Your task to perform on an android device: Search for custom wallets on Etsy. Image 0: 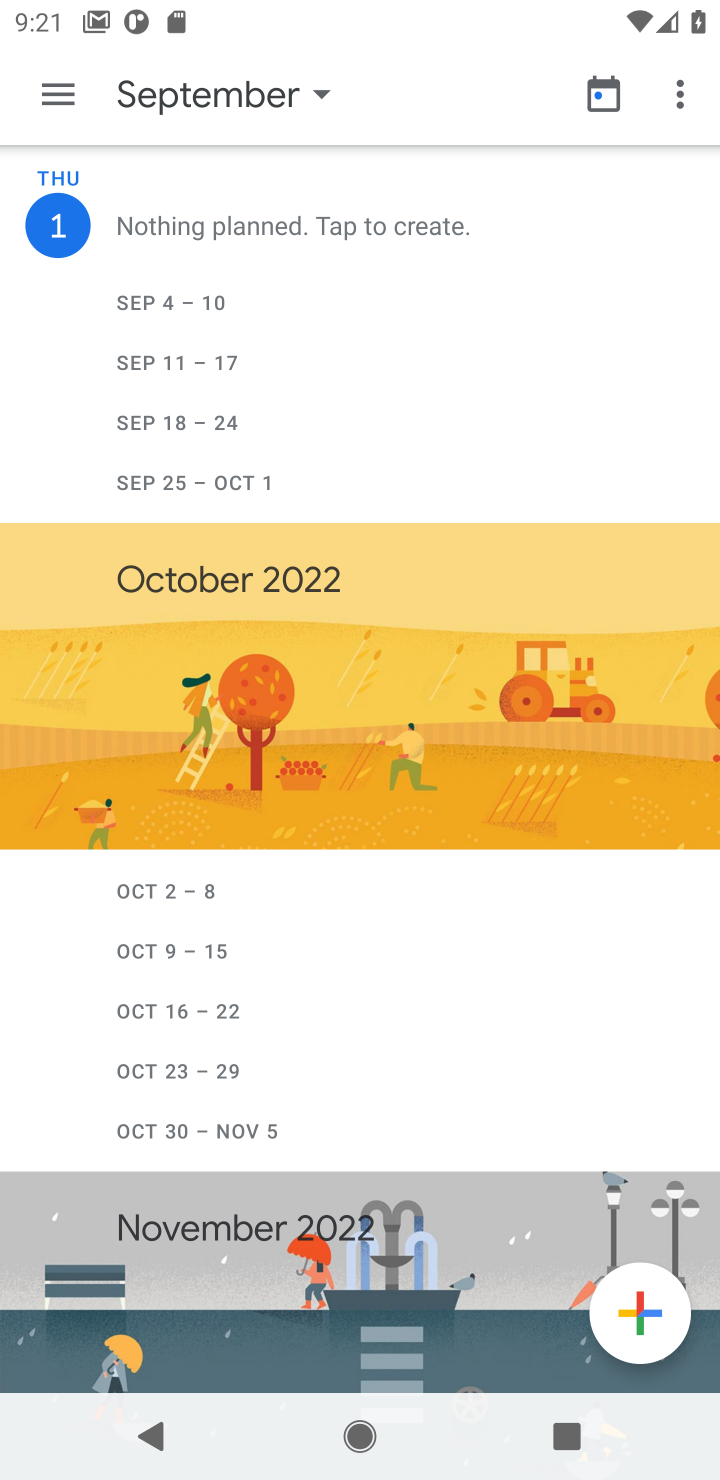
Step 0: press home button
Your task to perform on an android device: Search for custom wallets on Etsy. Image 1: 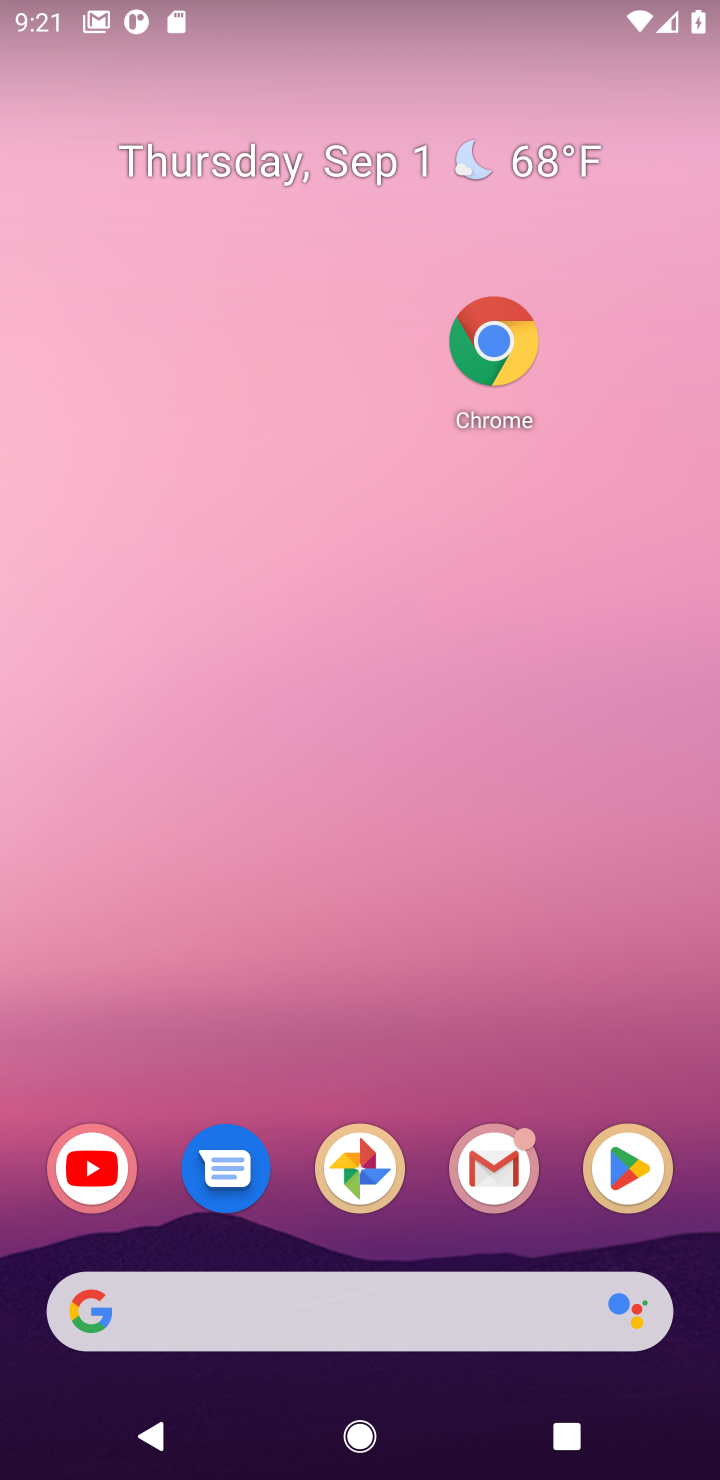
Step 1: drag from (260, 1205) to (321, 495)
Your task to perform on an android device: Search for custom wallets on Etsy. Image 2: 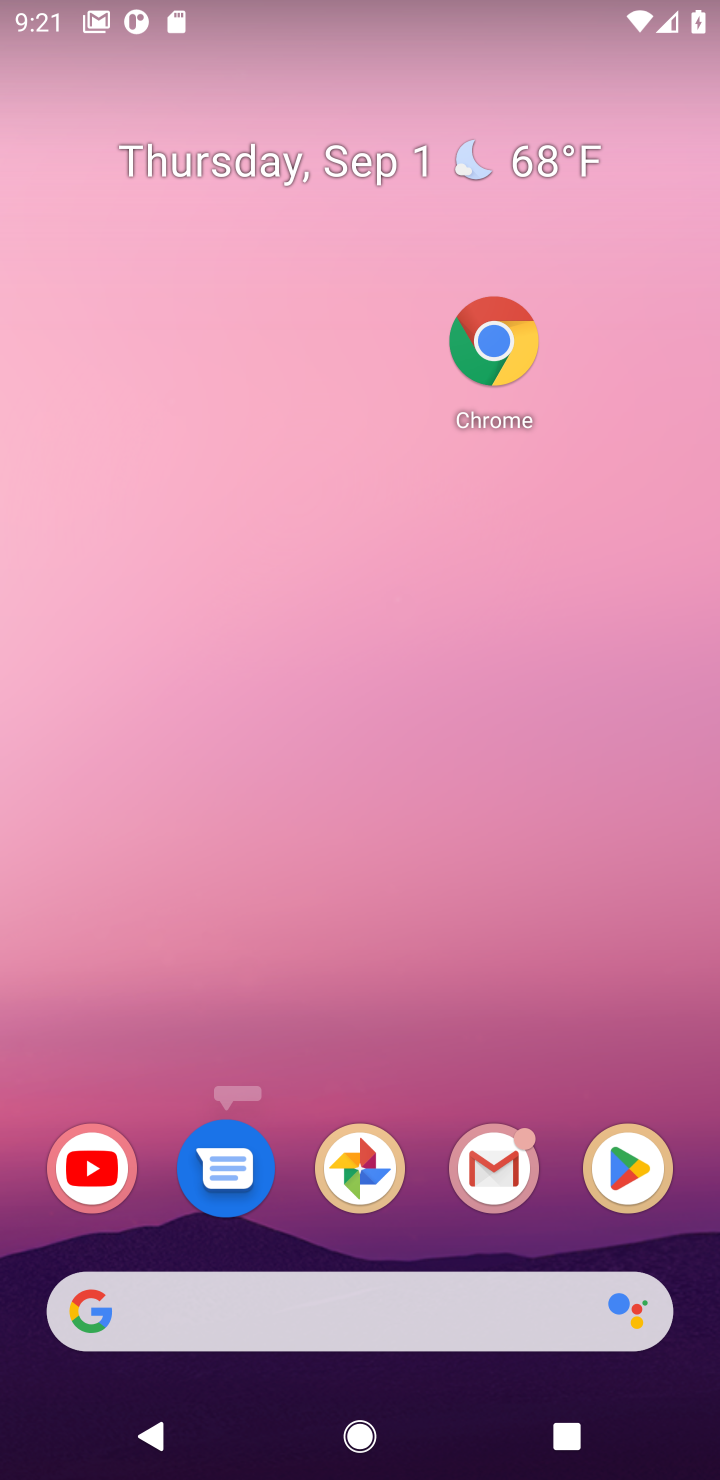
Step 2: click (337, 408)
Your task to perform on an android device: Search for custom wallets on Etsy. Image 3: 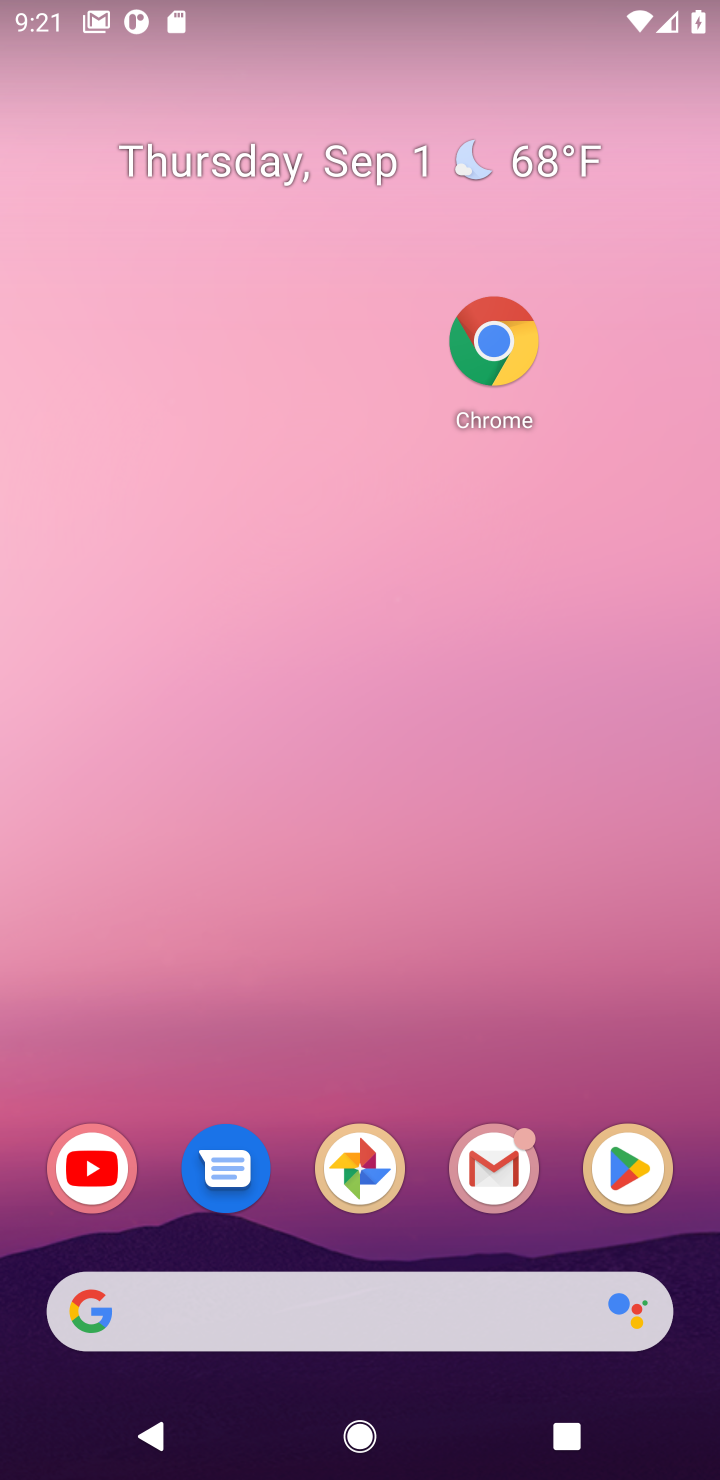
Step 3: drag from (403, 1216) to (397, 426)
Your task to perform on an android device: Search for custom wallets on Etsy. Image 4: 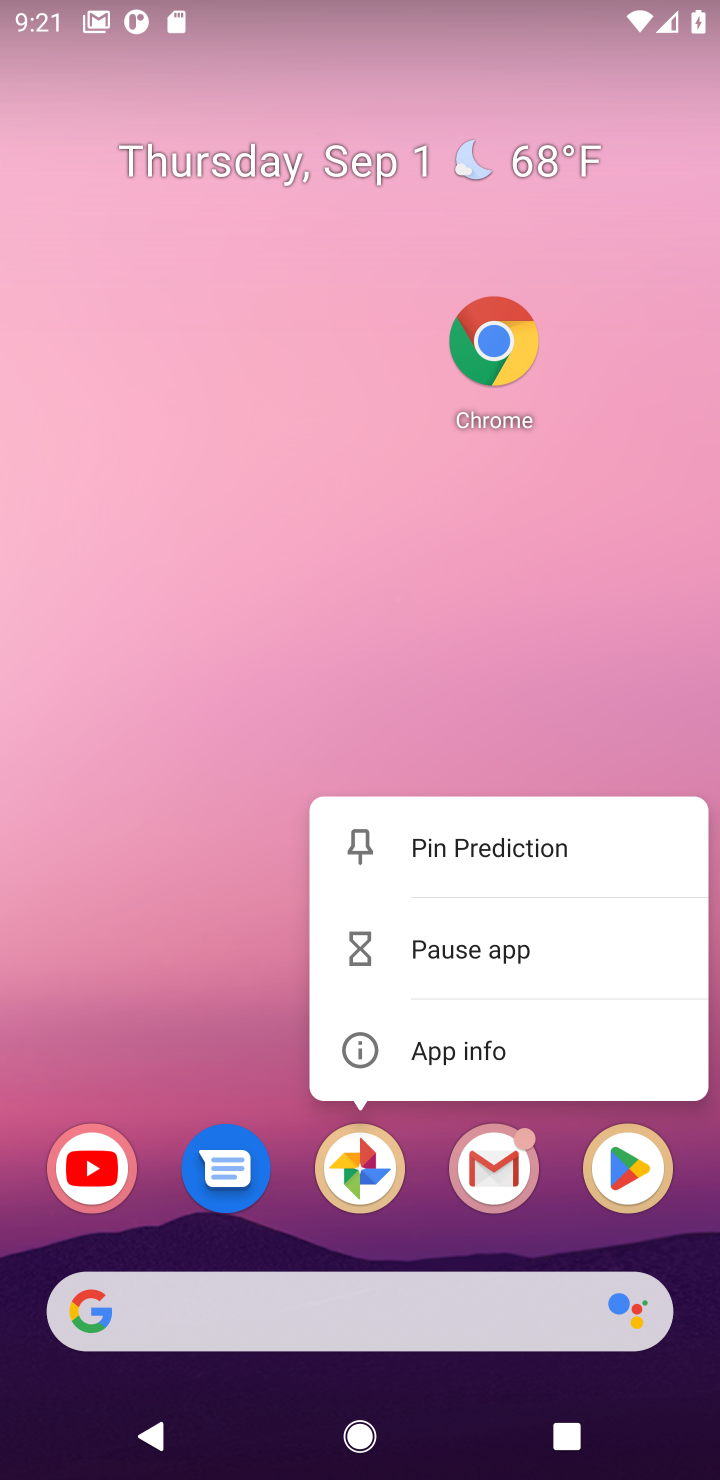
Step 4: click (189, 974)
Your task to perform on an android device: Search for custom wallets on Etsy. Image 5: 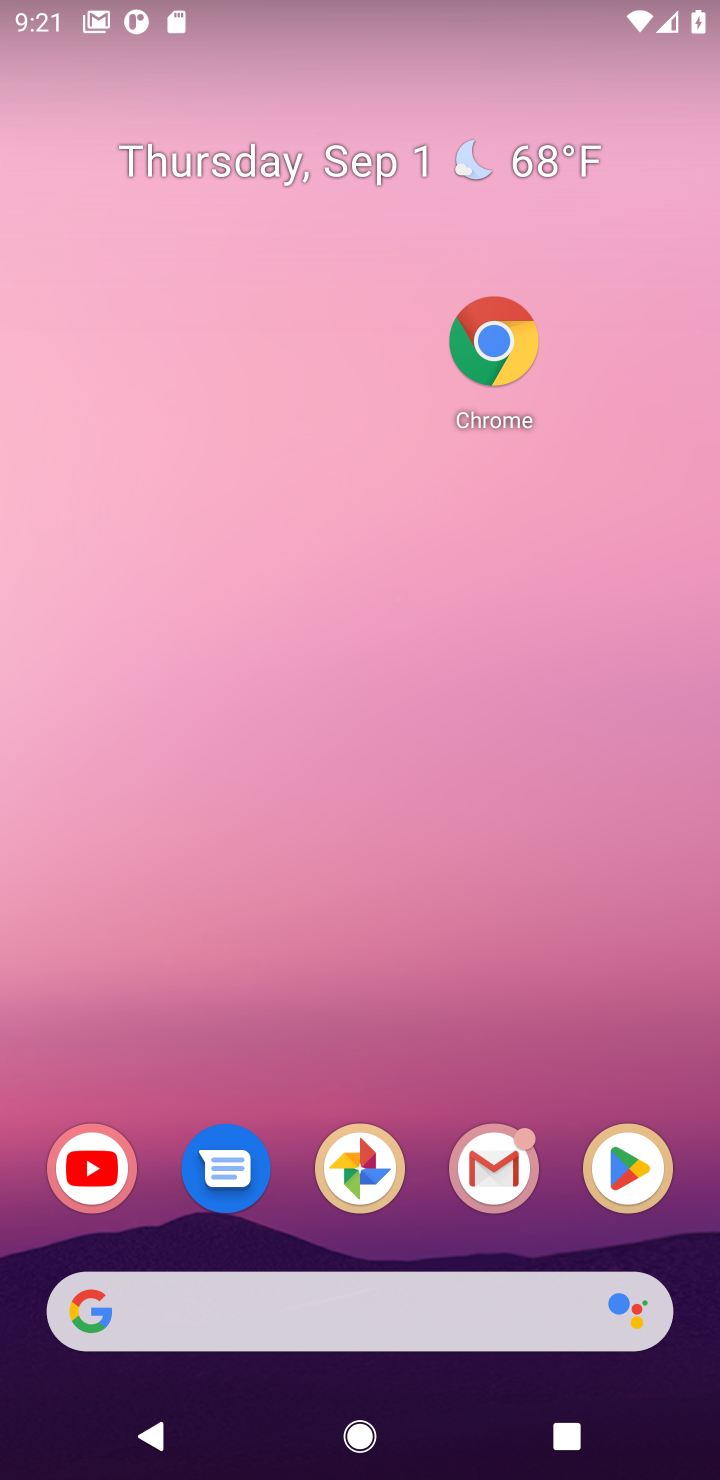
Step 5: click (298, 74)
Your task to perform on an android device: Search for custom wallets on Etsy. Image 6: 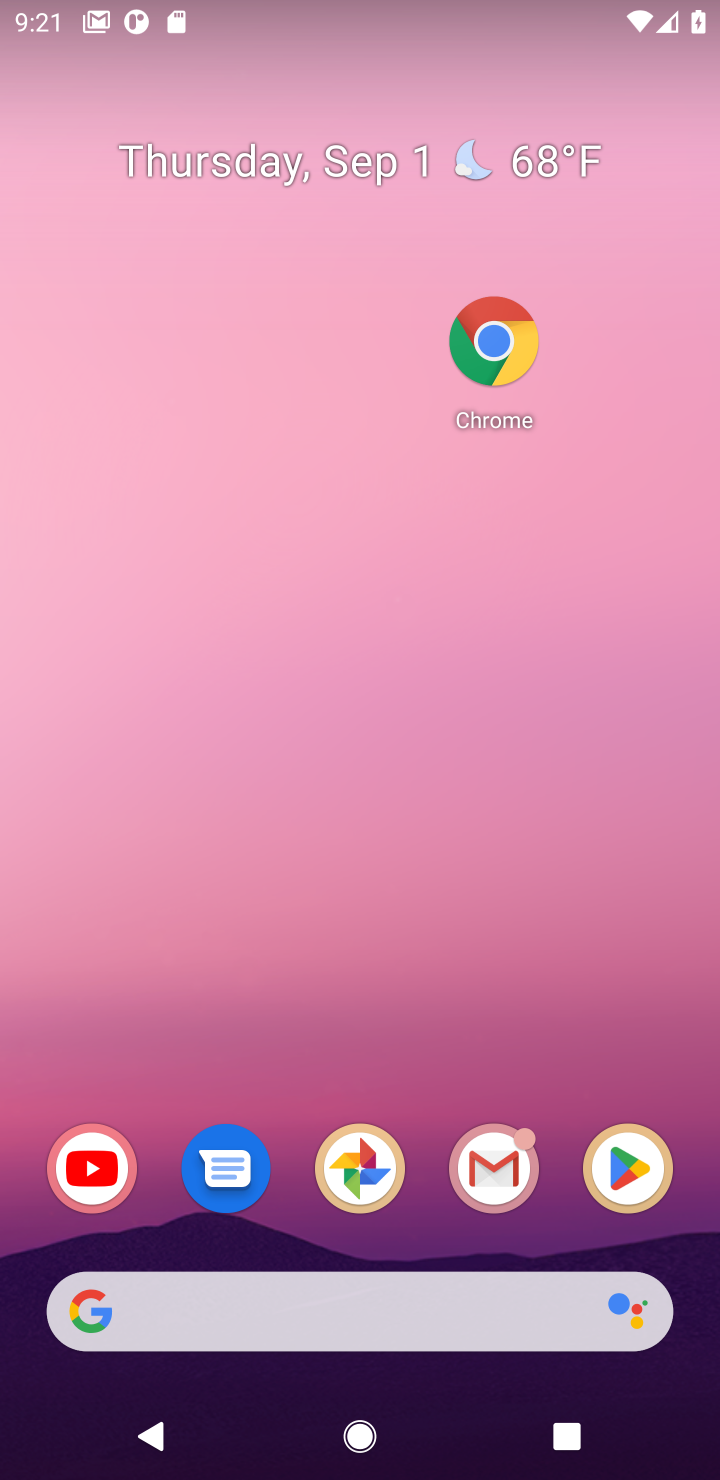
Step 6: click (259, 321)
Your task to perform on an android device: Search for custom wallets on Etsy. Image 7: 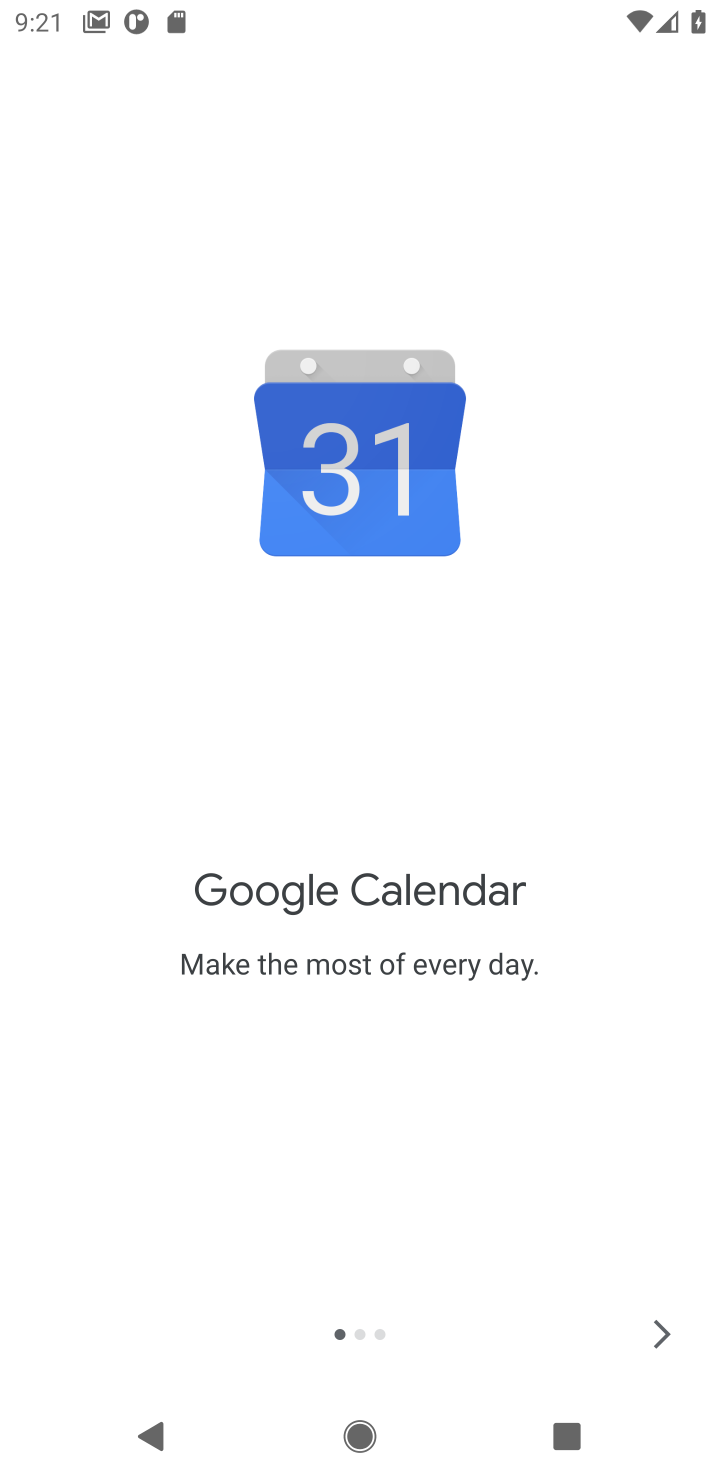
Step 7: press home button
Your task to perform on an android device: Search for custom wallets on Etsy. Image 8: 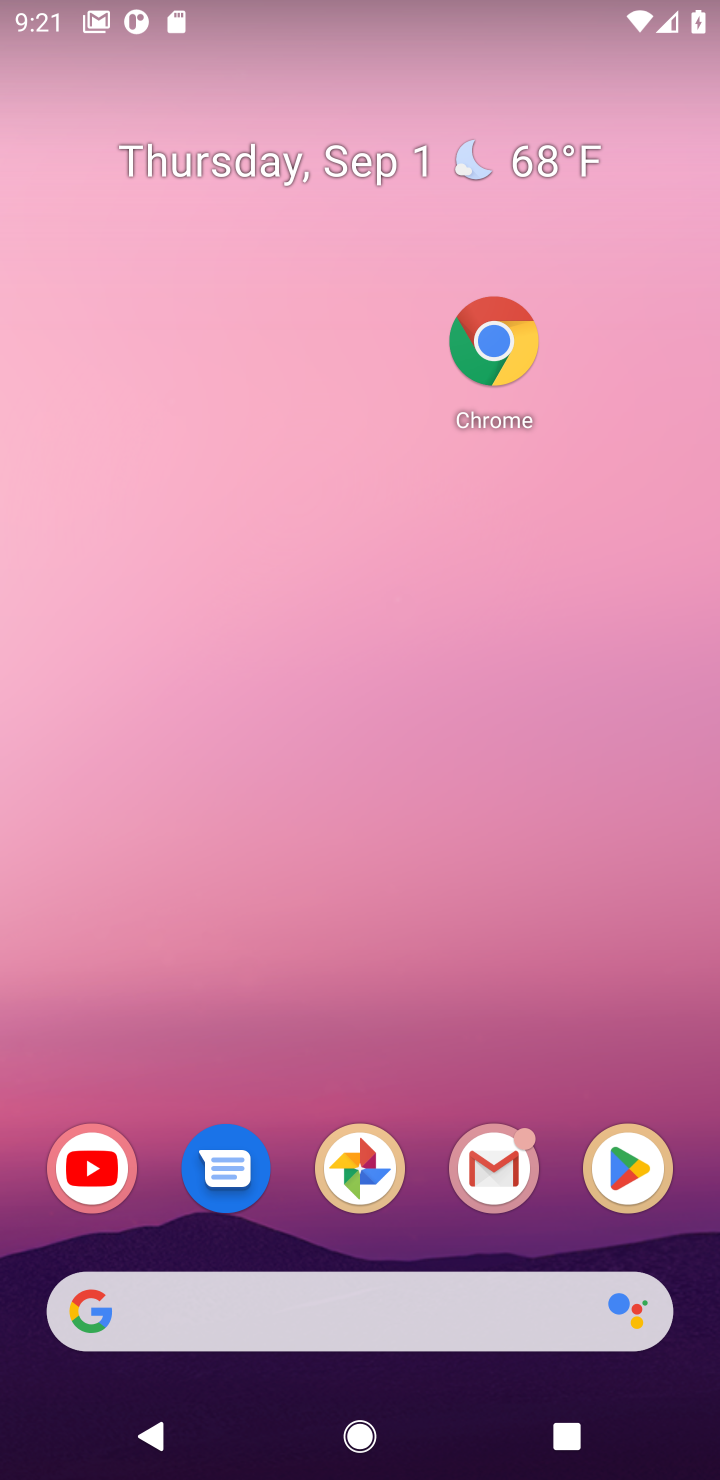
Step 8: drag from (374, 680) to (379, 385)
Your task to perform on an android device: Search for custom wallets on Etsy. Image 9: 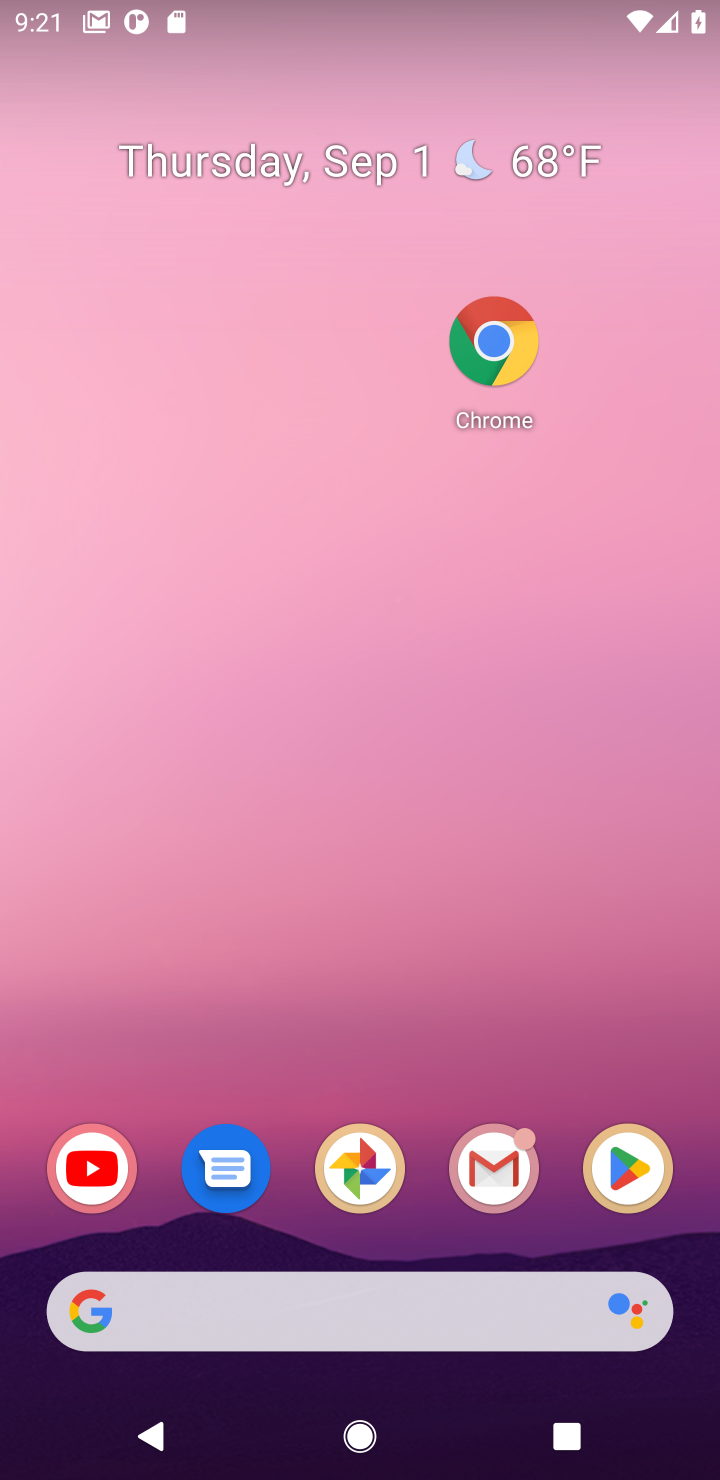
Step 9: click (411, 679)
Your task to perform on an android device: Search for custom wallets on Etsy. Image 10: 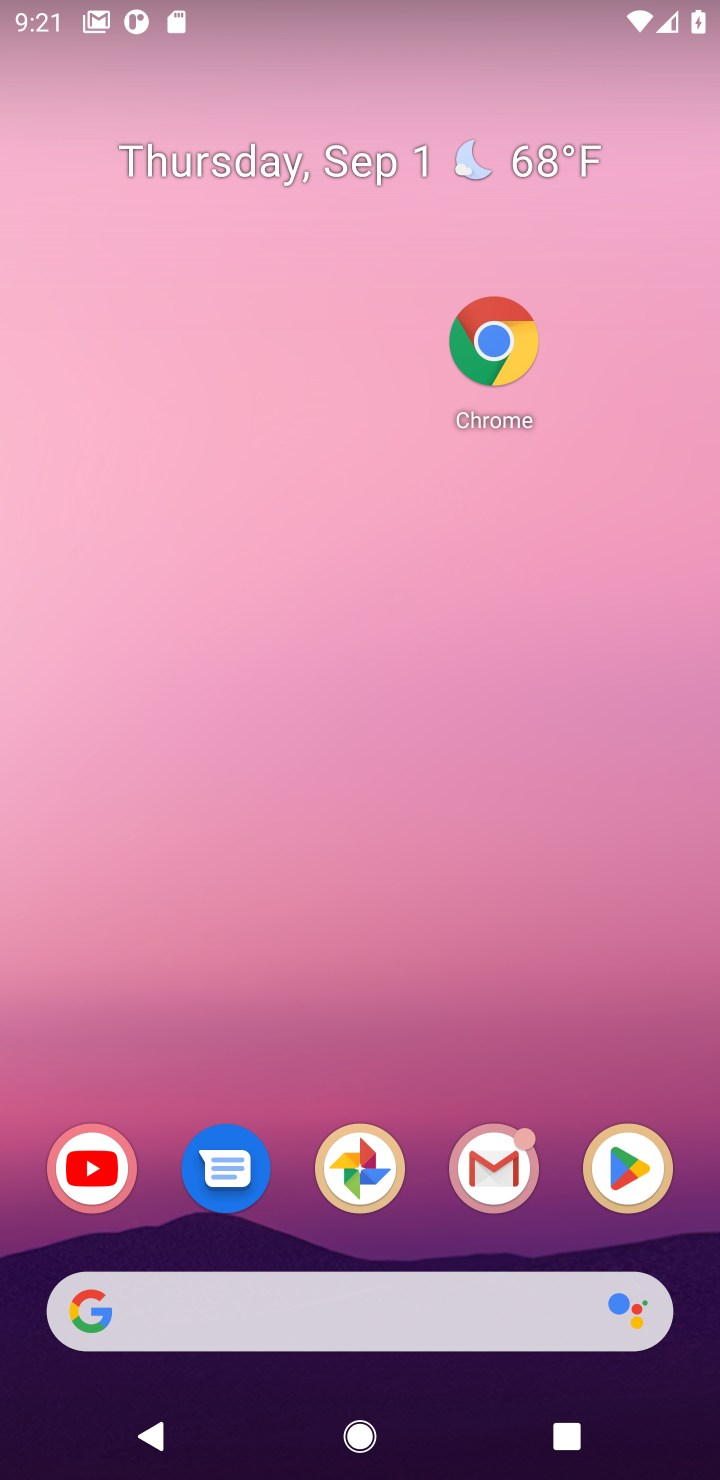
Step 10: drag from (269, 782) to (269, 511)
Your task to perform on an android device: Search for custom wallets on Etsy. Image 11: 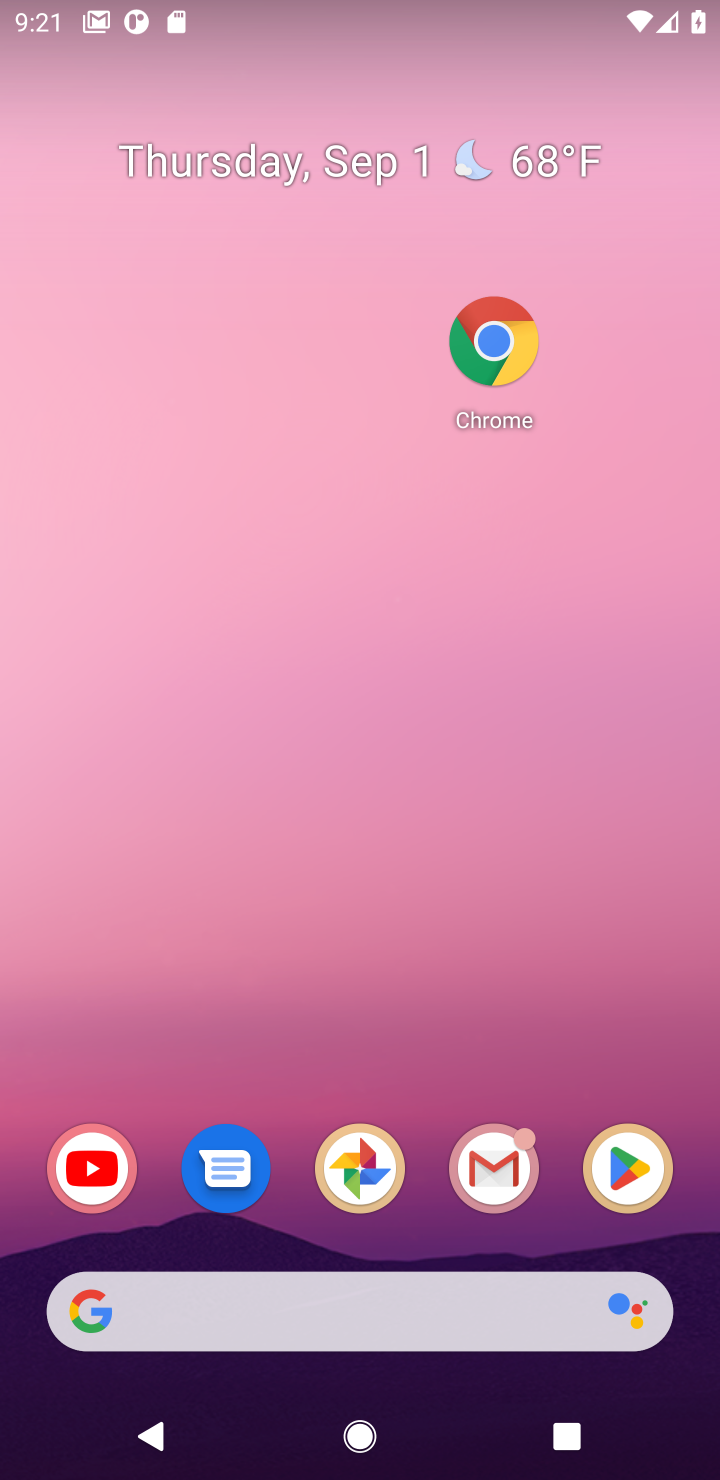
Step 11: drag from (233, 1434) to (351, 281)
Your task to perform on an android device: Search for custom wallets on Etsy. Image 12: 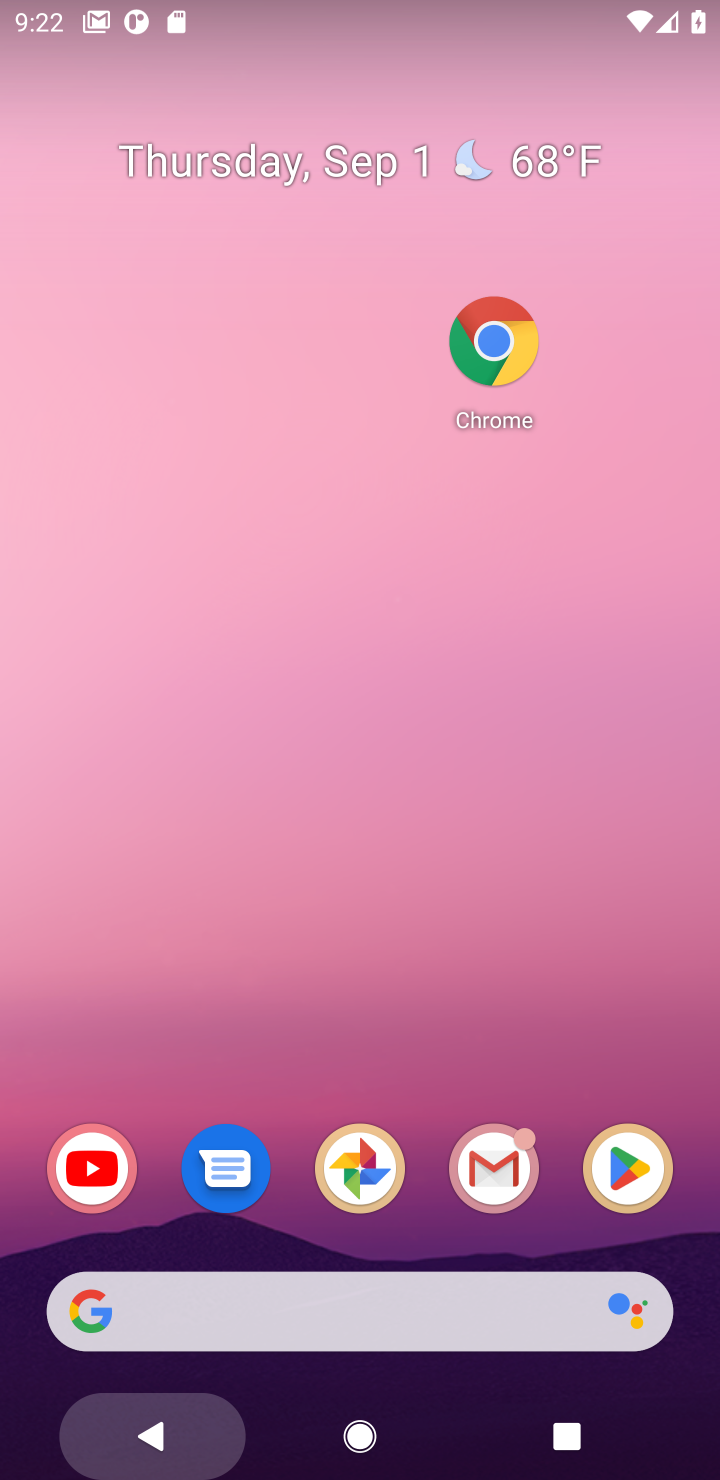
Step 12: click (304, 571)
Your task to perform on an android device: Search for custom wallets on Etsy. Image 13: 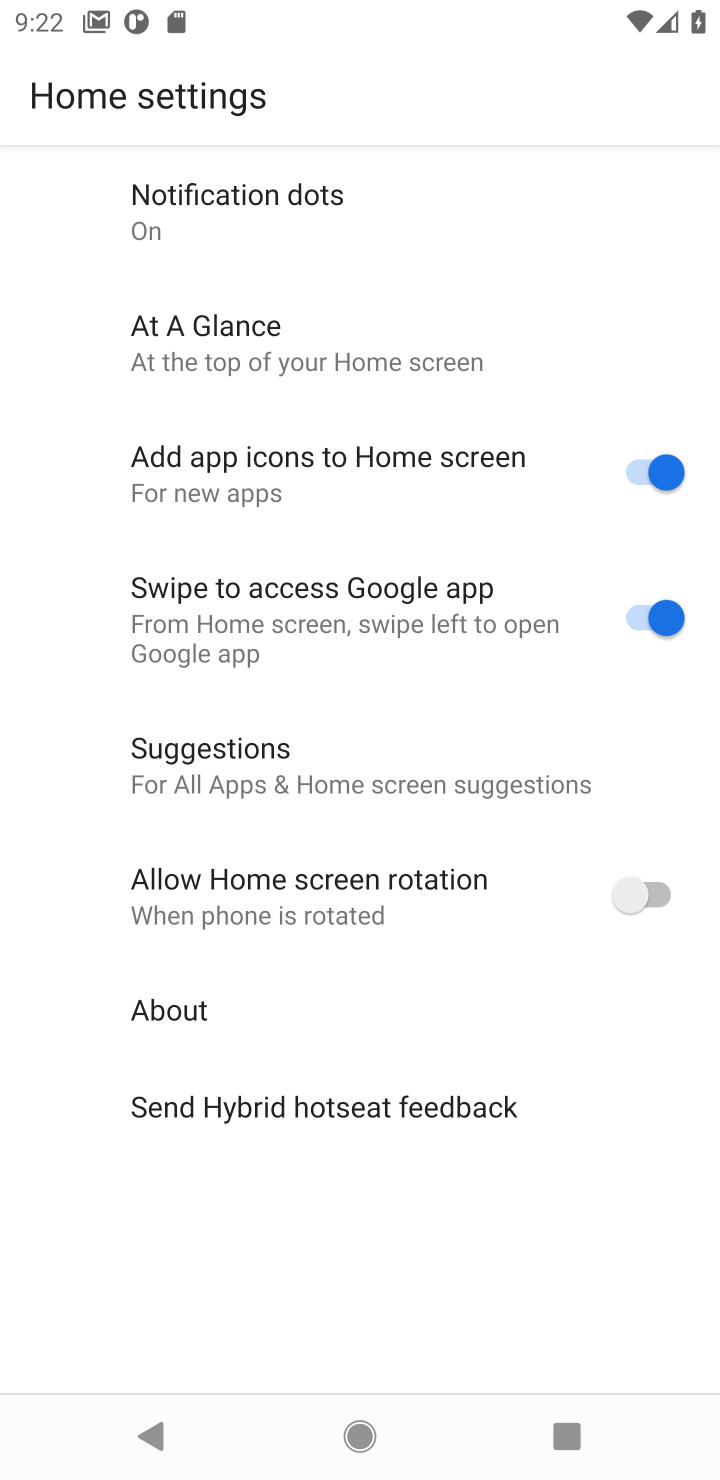
Step 13: press home button
Your task to perform on an android device: Search for custom wallets on Etsy. Image 14: 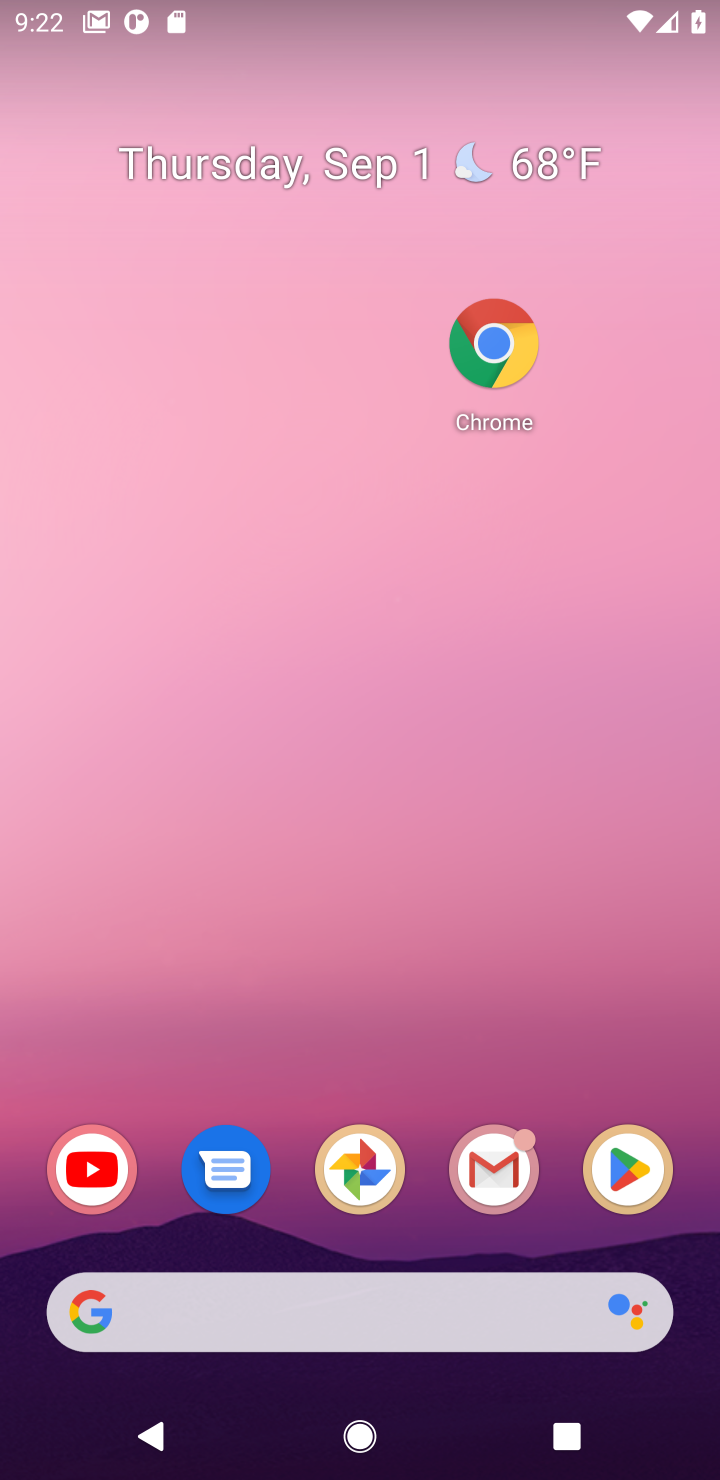
Step 14: press home button
Your task to perform on an android device: Search for custom wallets on Etsy. Image 15: 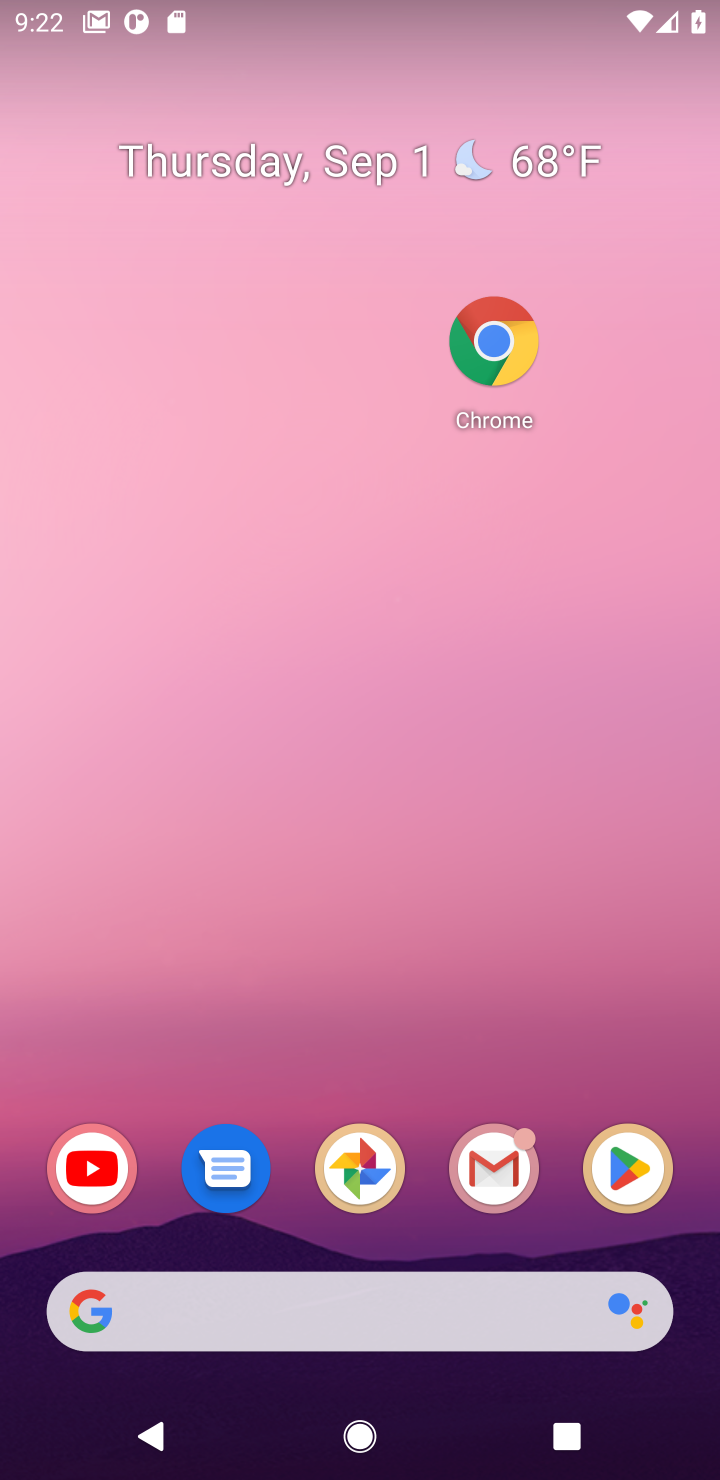
Step 15: drag from (349, 960) to (439, 409)
Your task to perform on an android device: Search for custom wallets on Etsy. Image 16: 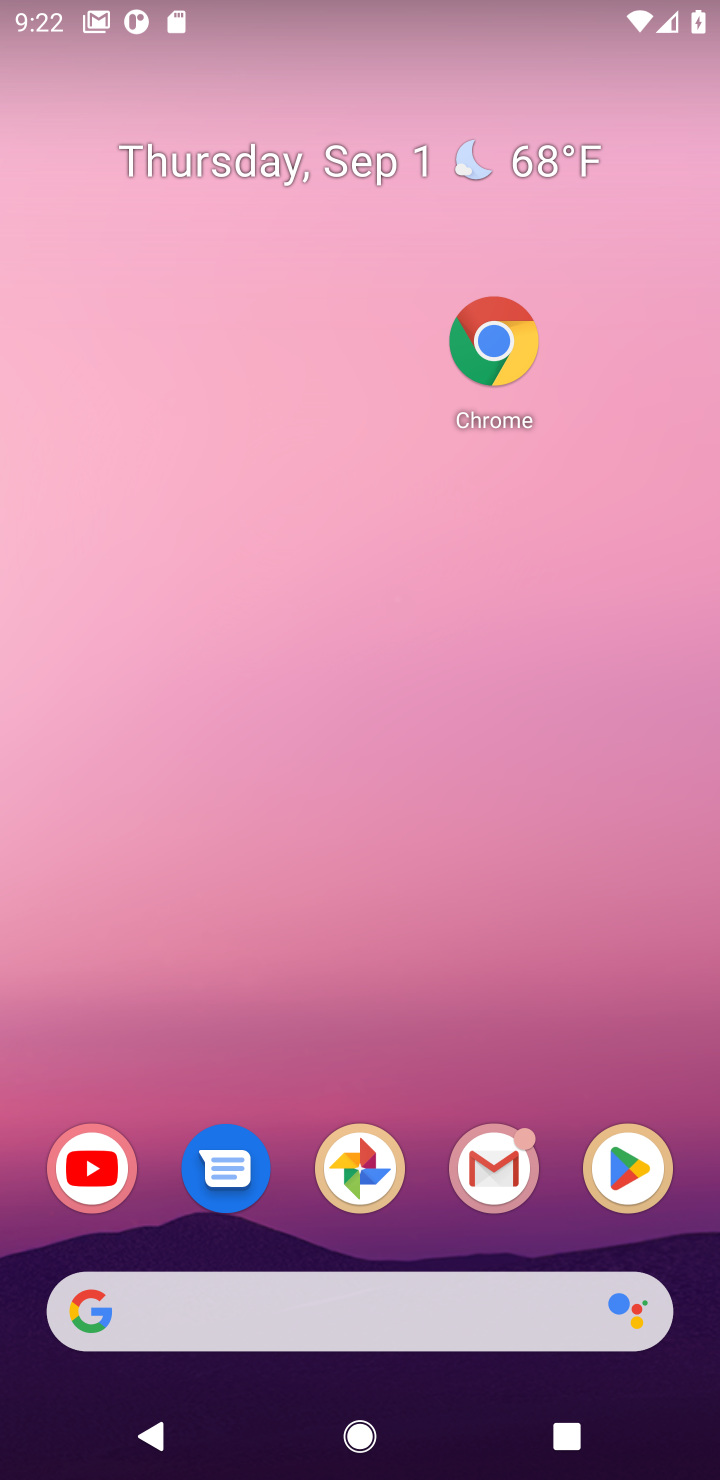
Step 16: click (365, 80)
Your task to perform on an android device: Search for custom wallets on Etsy. Image 17: 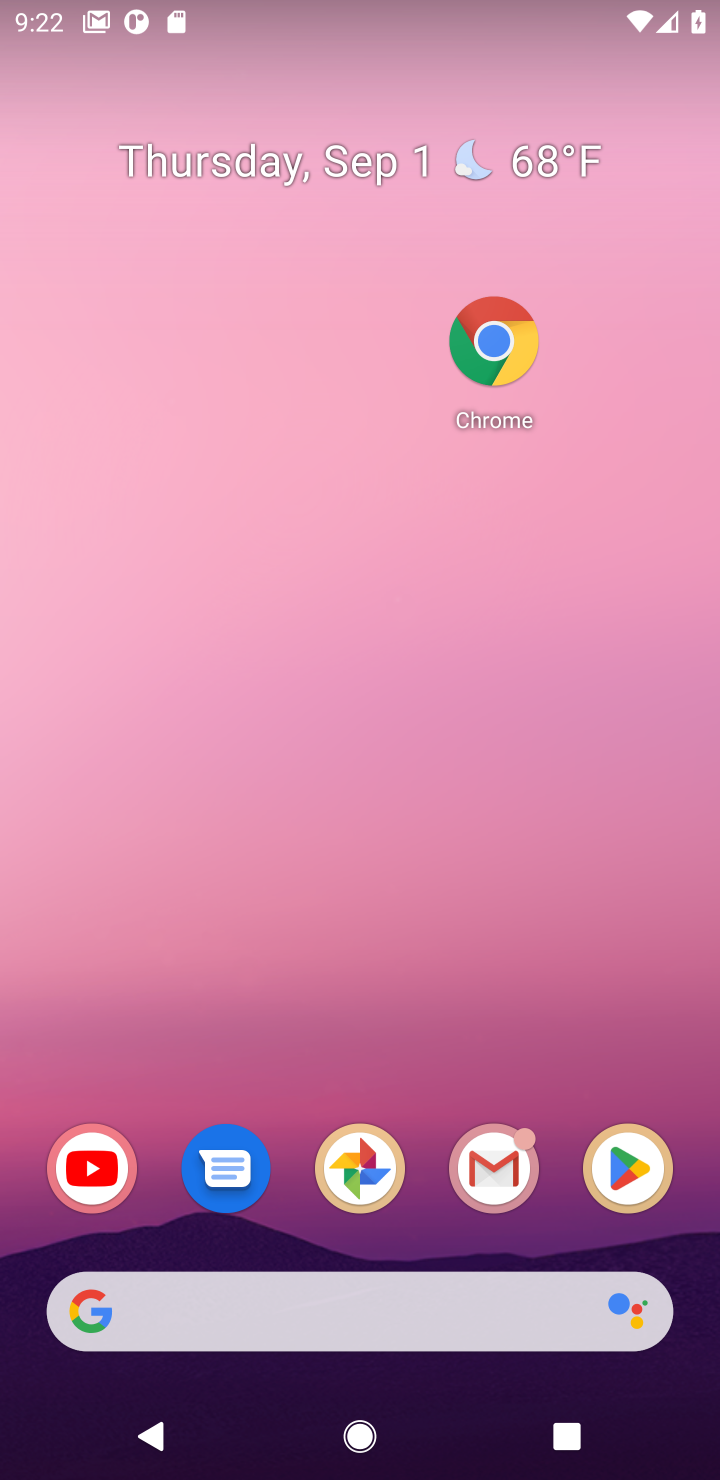
Step 17: click (371, 153)
Your task to perform on an android device: Search for custom wallets on Etsy. Image 18: 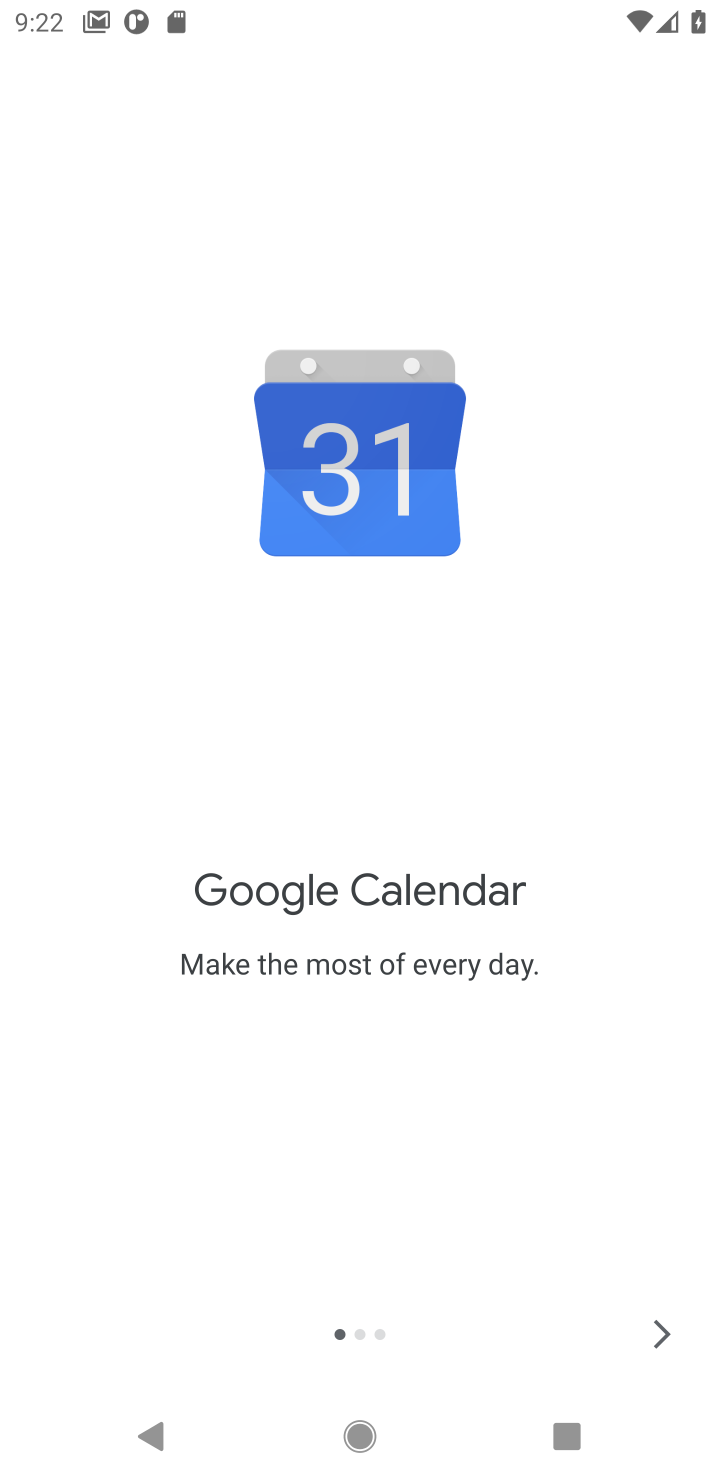
Step 18: press home button
Your task to perform on an android device: Search for custom wallets on Etsy. Image 19: 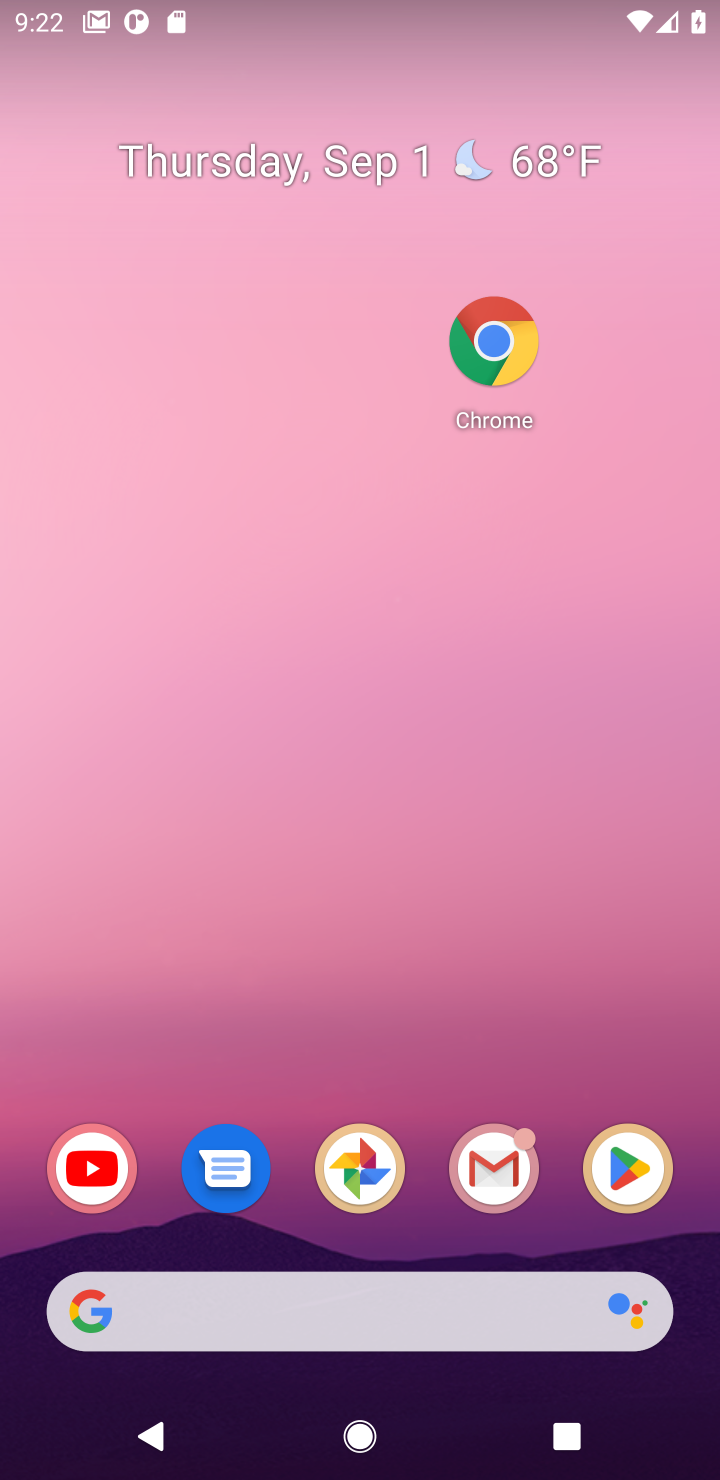
Step 19: click (464, 334)
Your task to perform on an android device: Search for custom wallets on Etsy. Image 20: 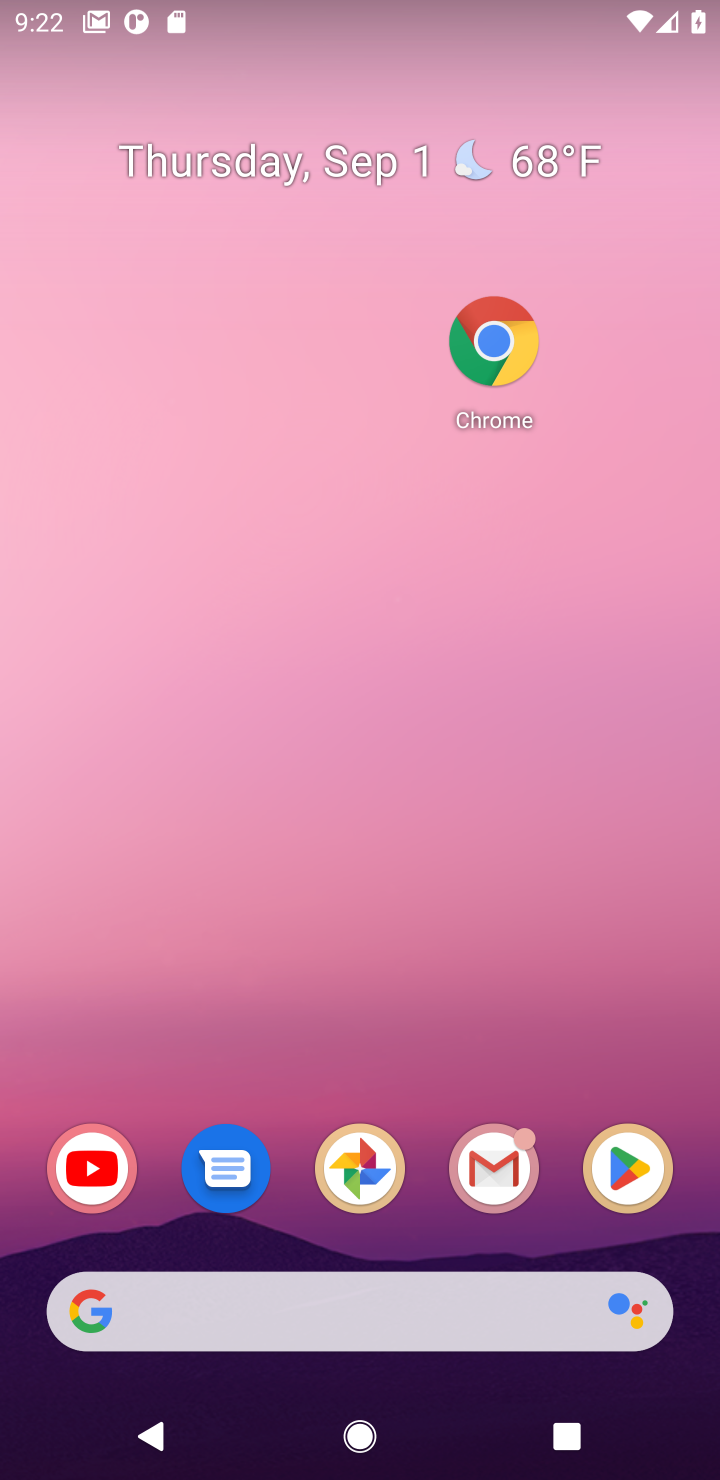
Step 20: click (508, 337)
Your task to perform on an android device: Search for custom wallets on Etsy. Image 21: 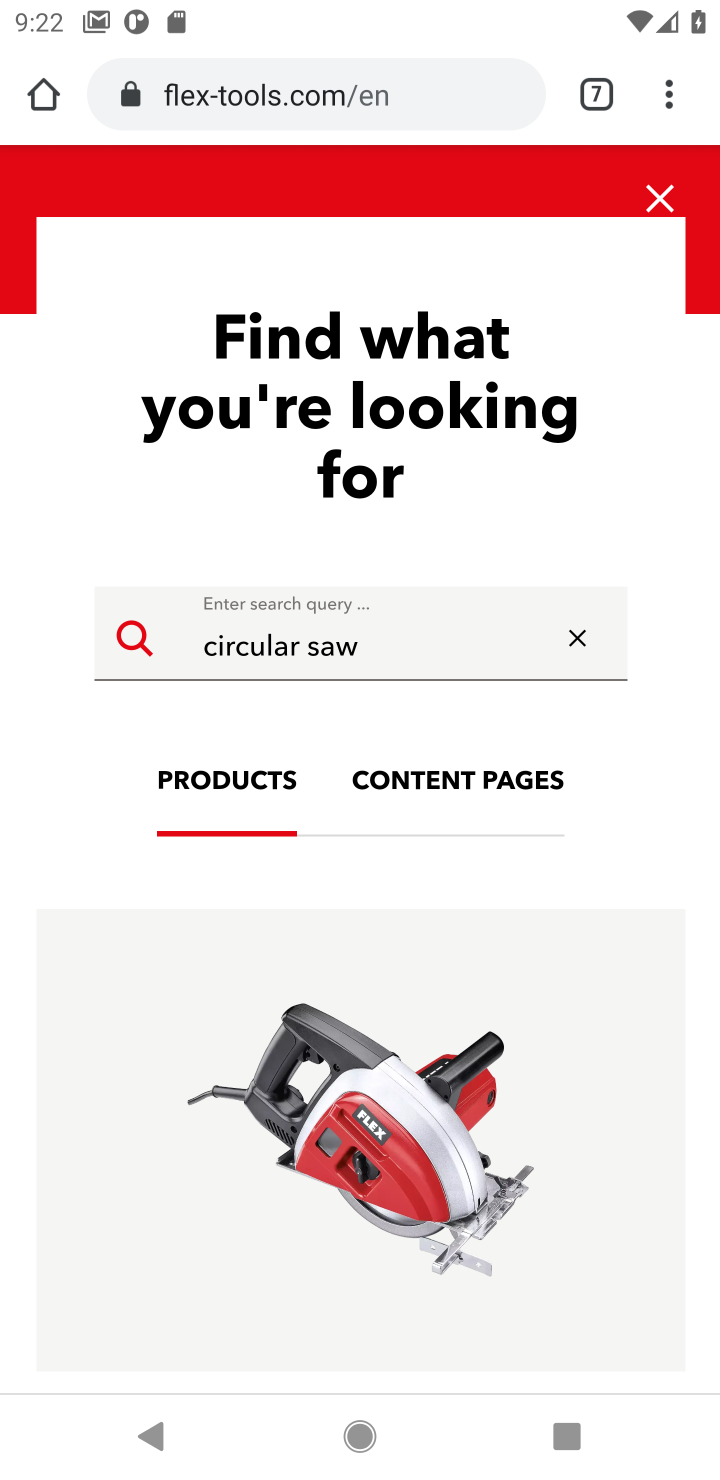
Step 21: click (654, 203)
Your task to perform on an android device: Search for custom wallets on Etsy. Image 22: 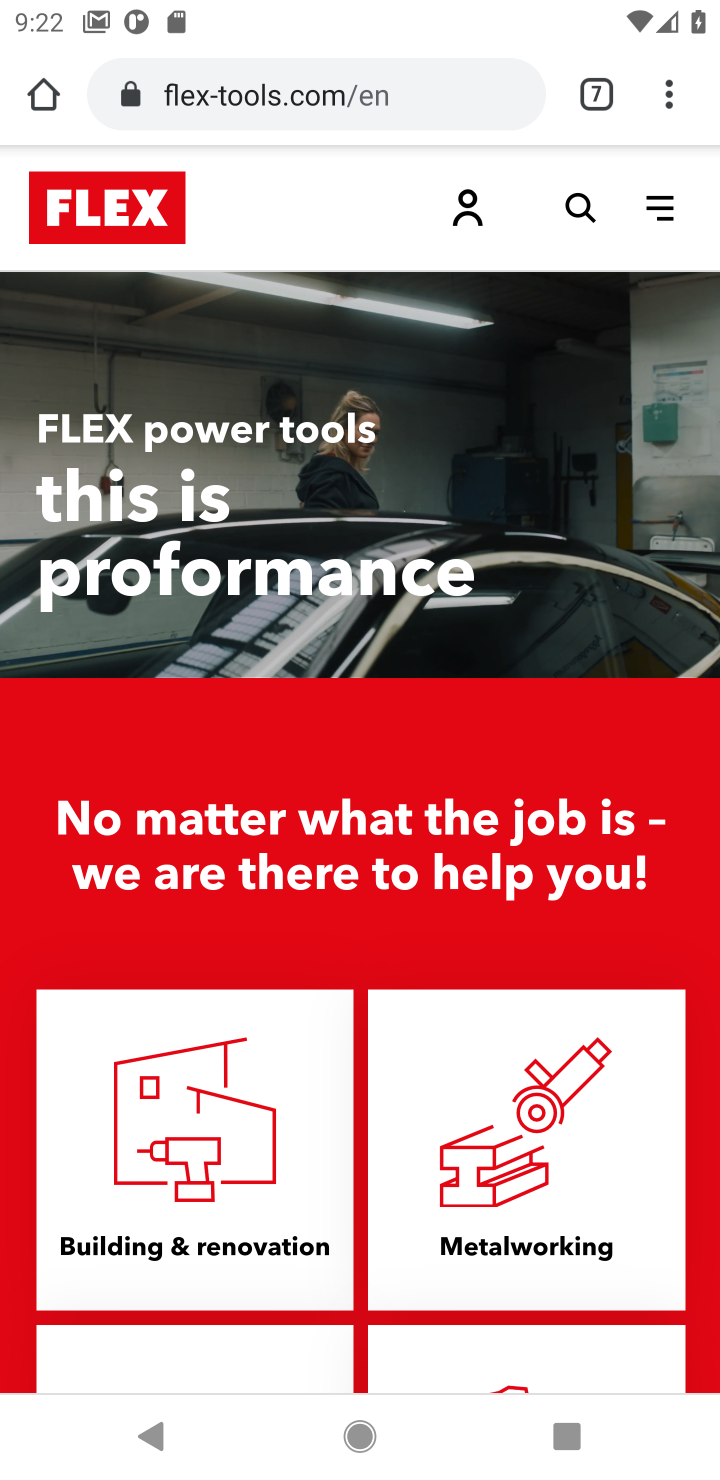
Step 22: click (654, 84)
Your task to perform on an android device: Search for custom wallets on Etsy. Image 23: 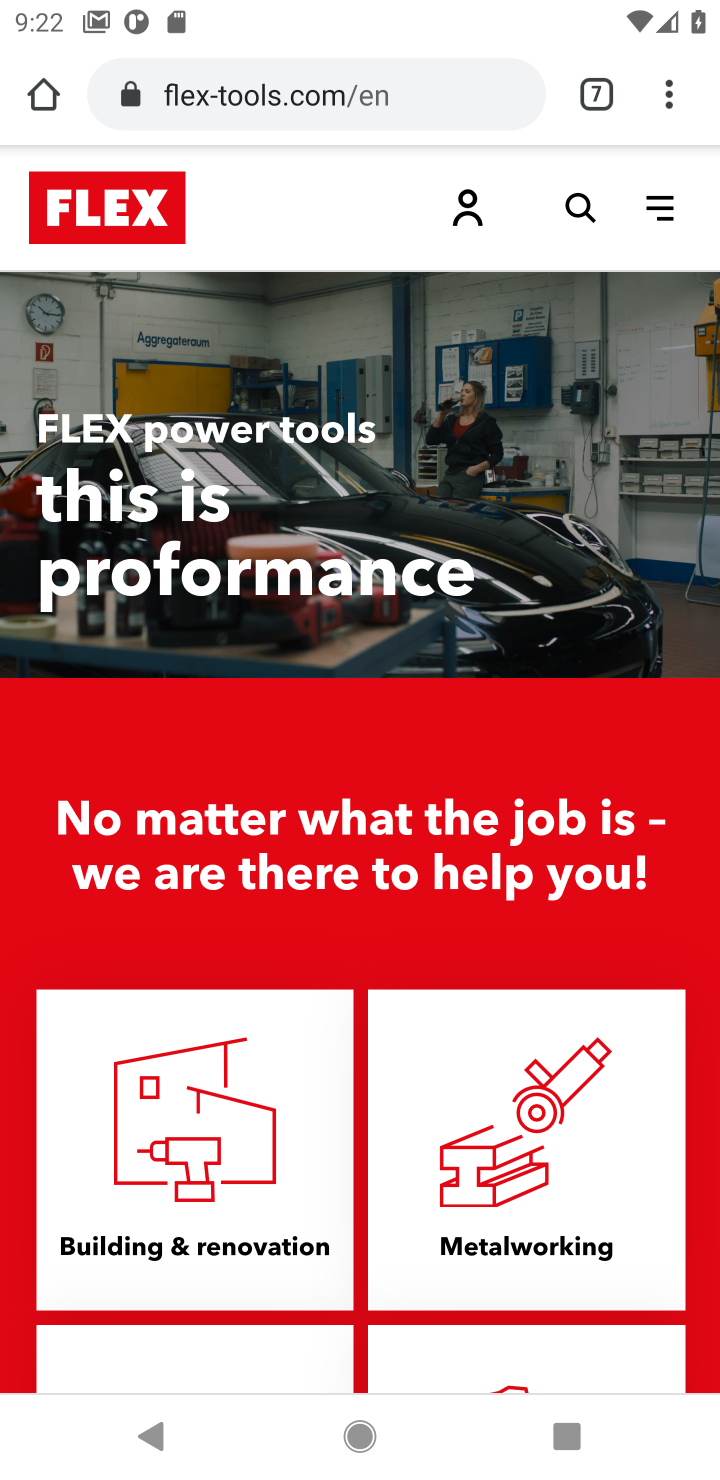
Step 23: click (669, 105)
Your task to perform on an android device: Search for custom wallets on Etsy. Image 24: 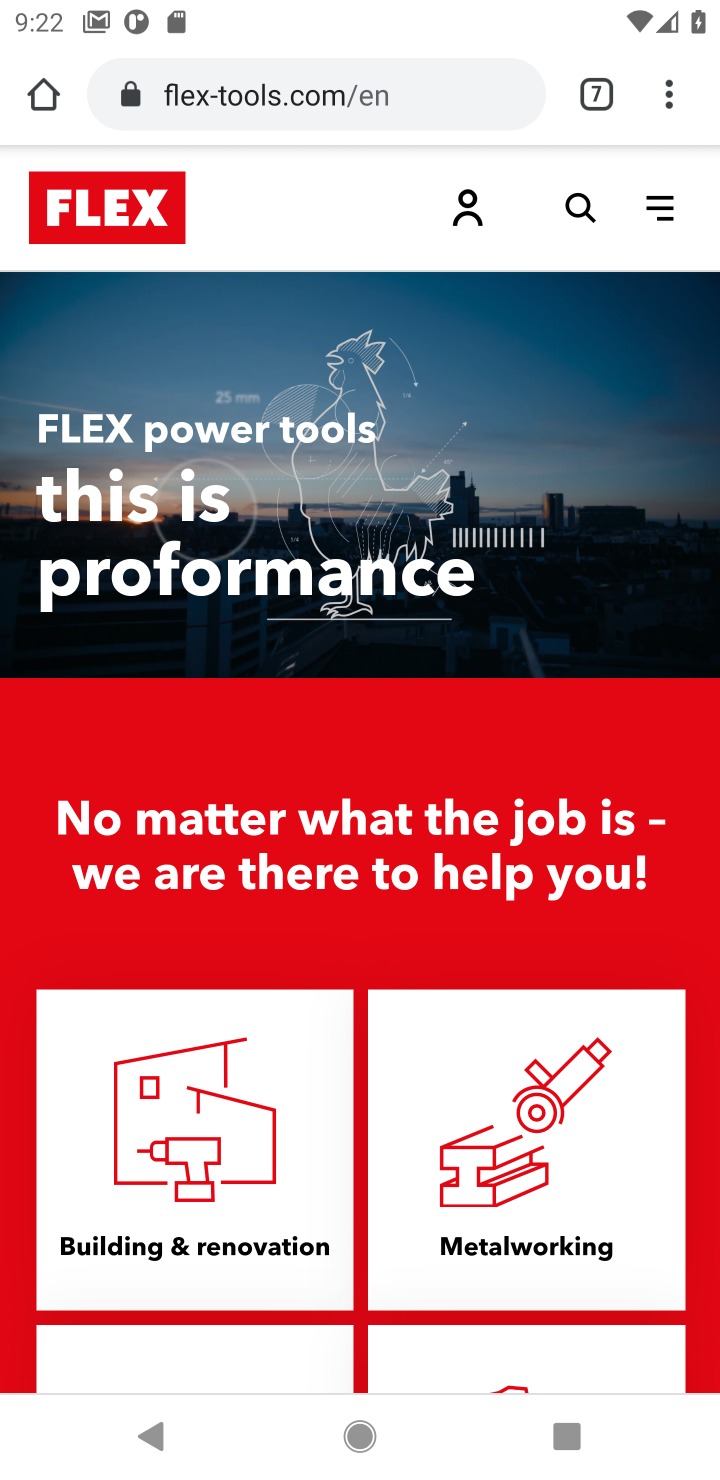
Step 24: click (663, 83)
Your task to perform on an android device: Search for custom wallets on Etsy. Image 25: 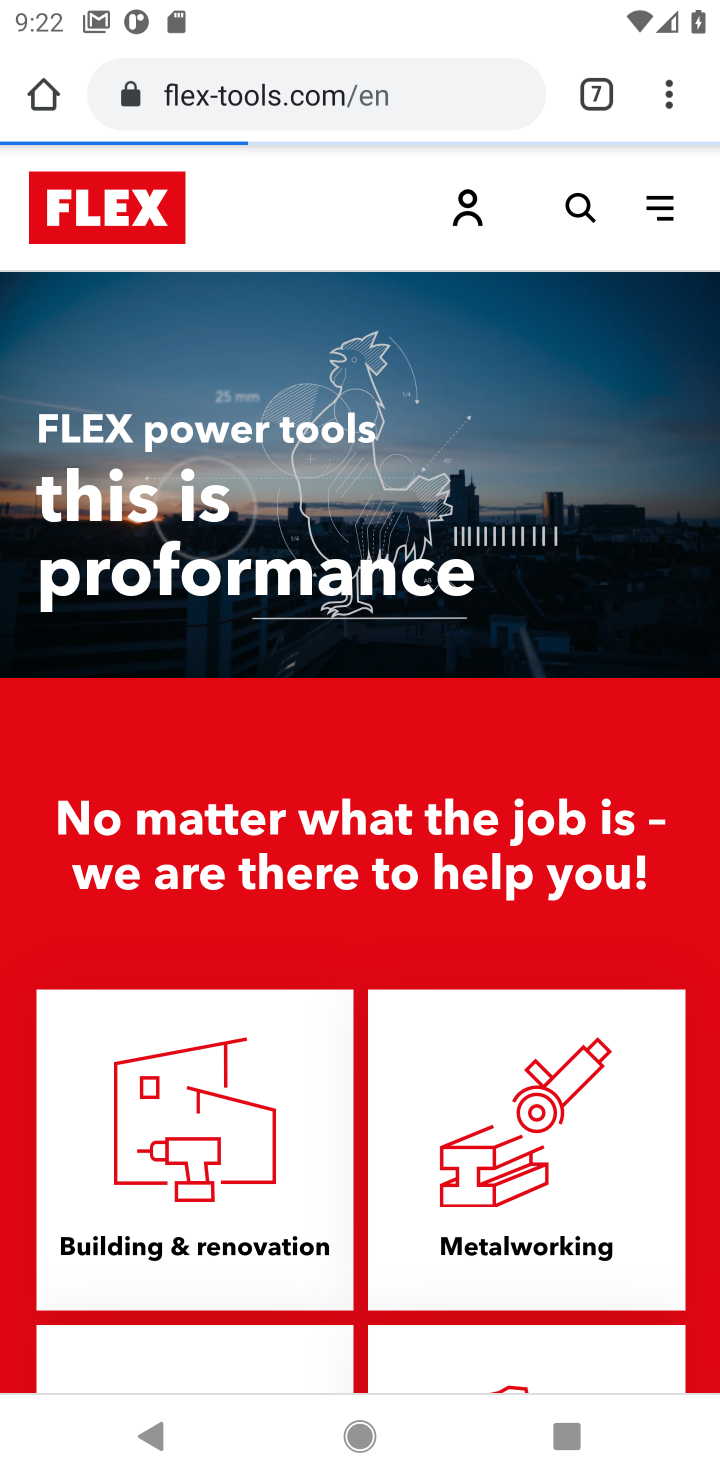
Step 25: click (675, 85)
Your task to perform on an android device: Search for custom wallets on Etsy. Image 26: 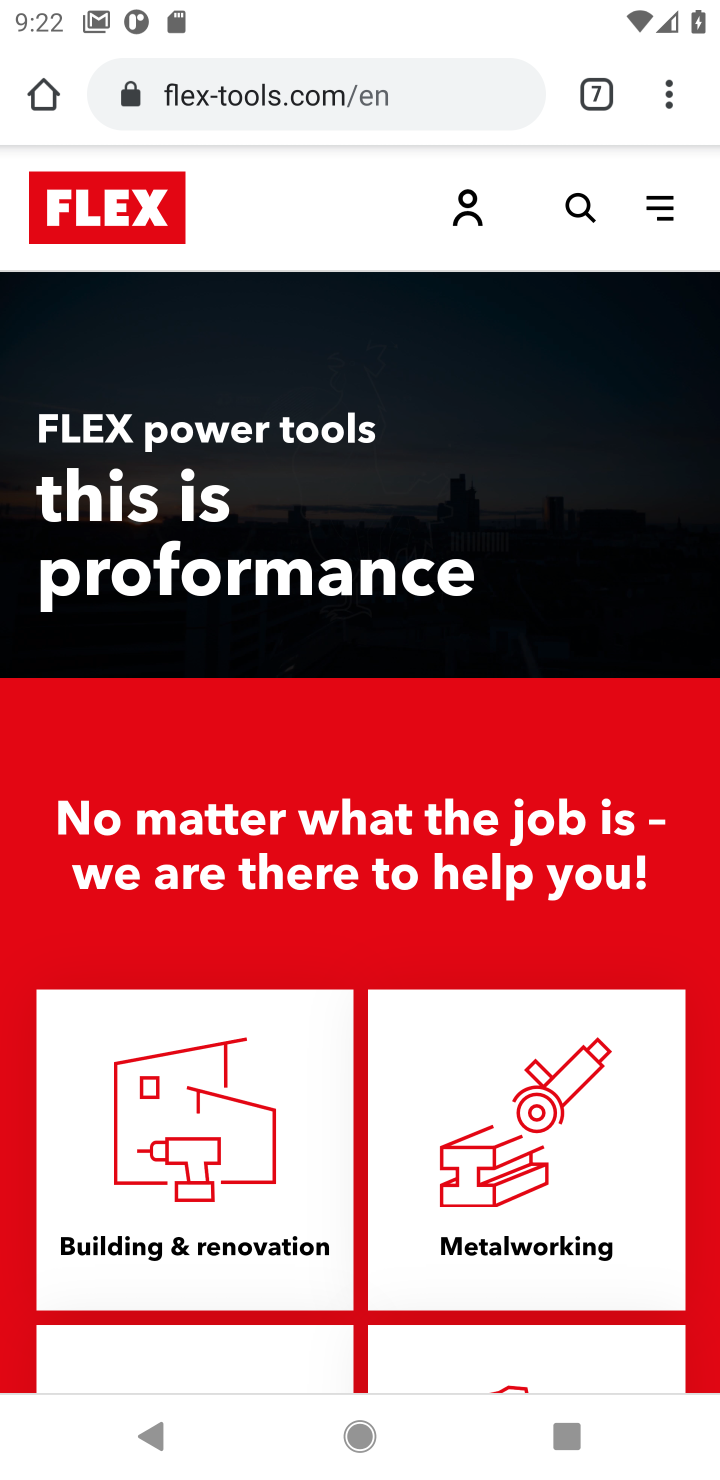
Step 26: click (675, 85)
Your task to perform on an android device: Search for custom wallets on Etsy. Image 27: 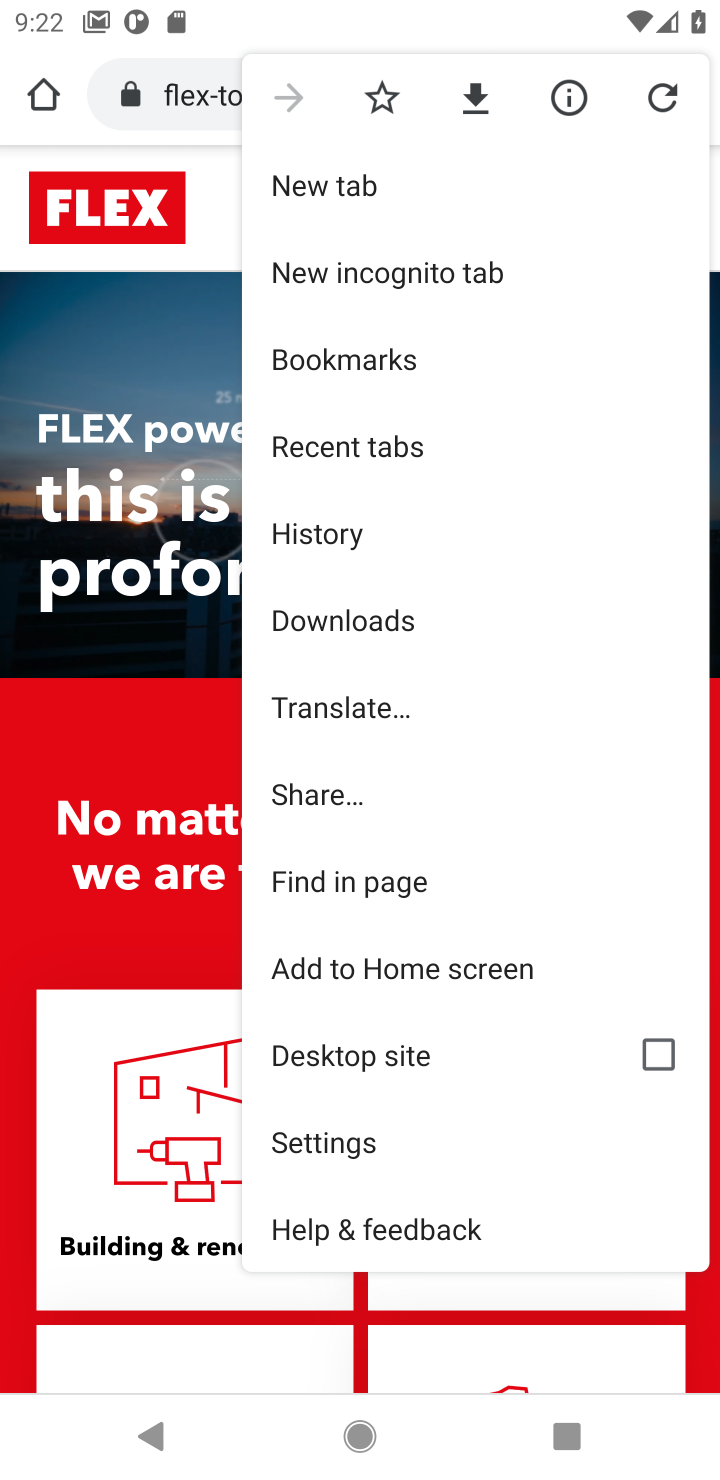
Step 27: click (298, 185)
Your task to perform on an android device: Search for custom wallets on Etsy. Image 28: 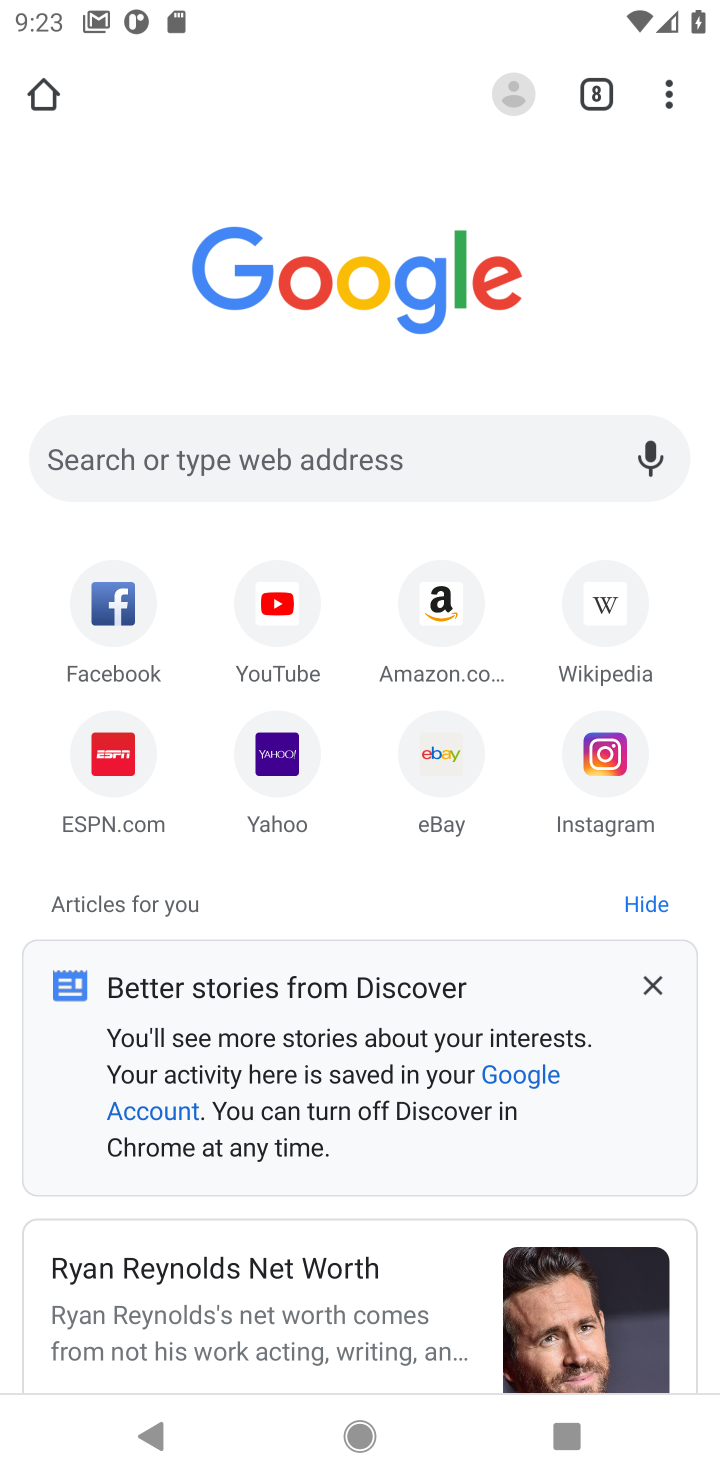
Step 28: click (316, 431)
Your task to perform on an android device: Search for custom wallets on Etsy. Image 29: 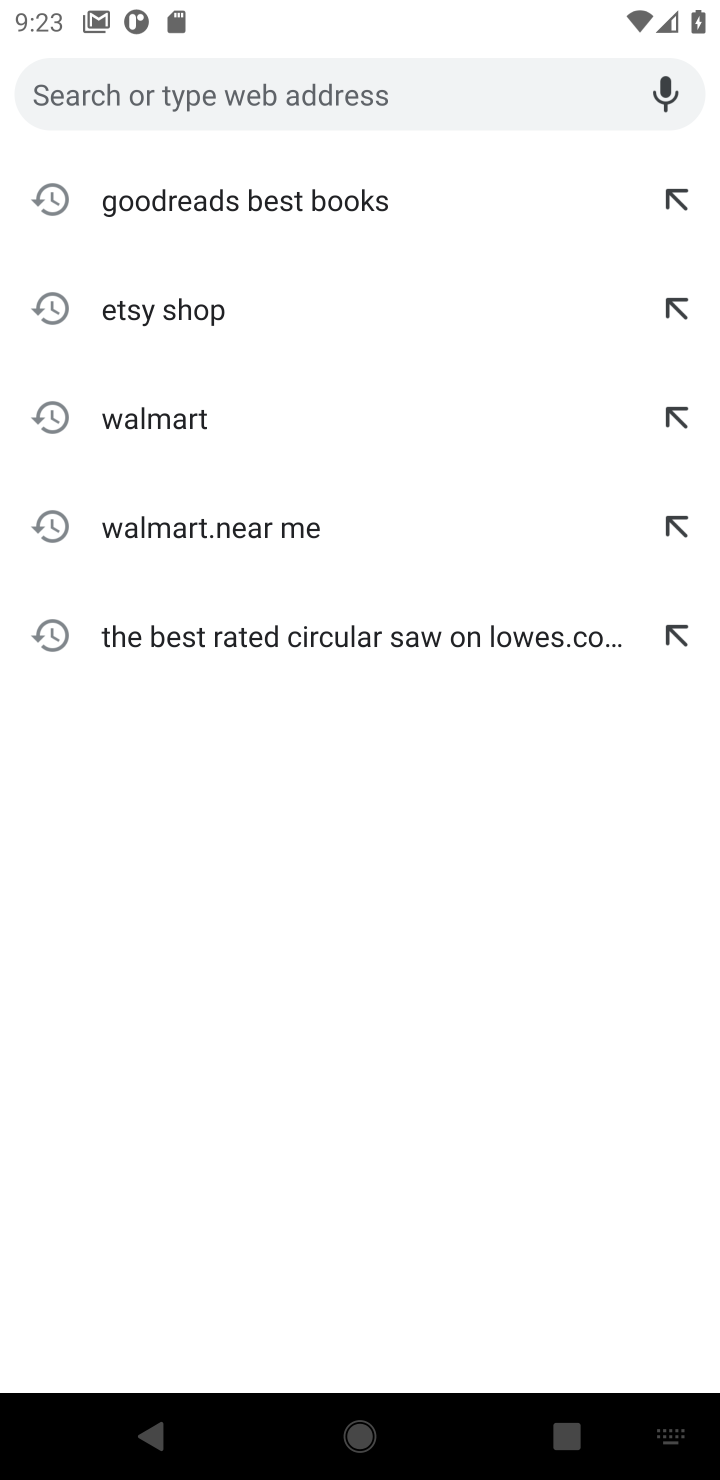
Step 29: type "Etsy "
Your task to perform on an android device: Search for custom wallets on Etsy. Image 30: 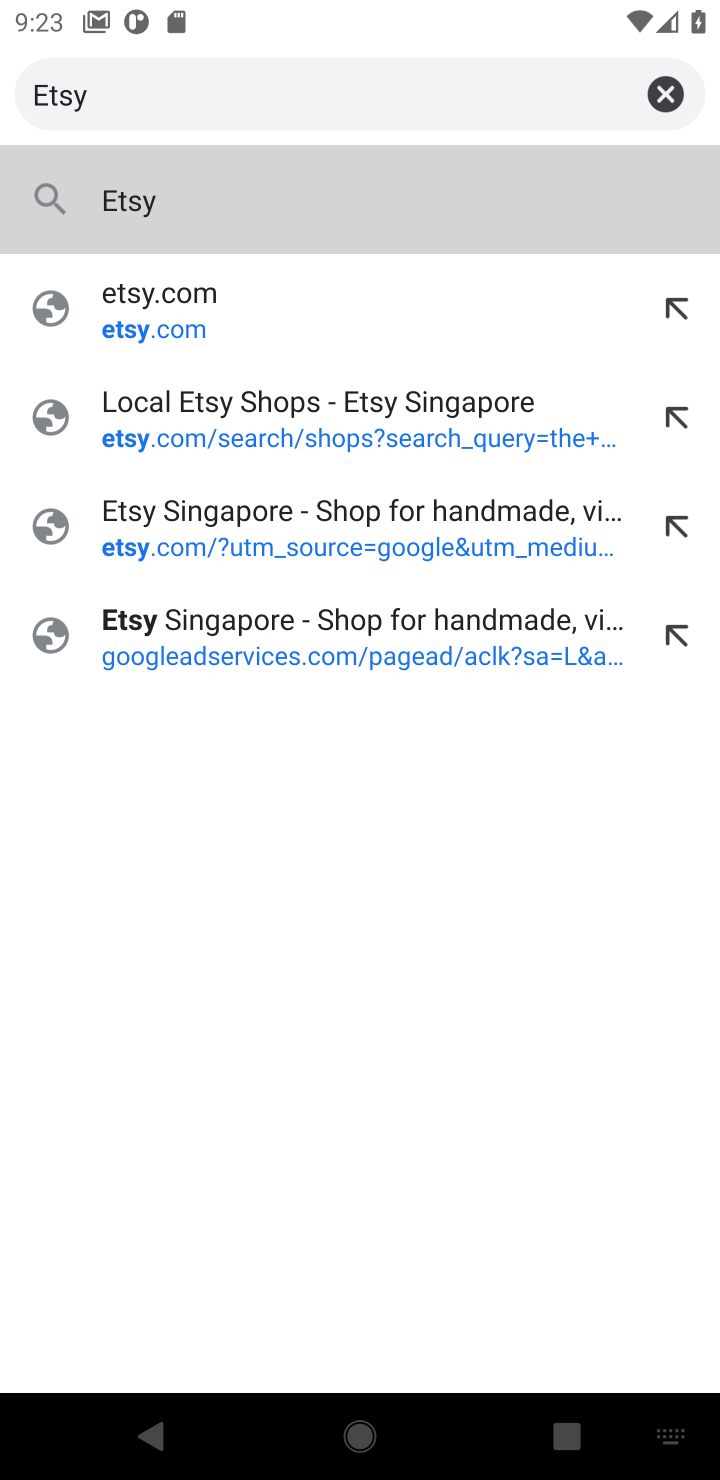
Step 30: click (209, 181)
Your task to perform on an android device: Search for custom wallets on Etsy. Image 31: 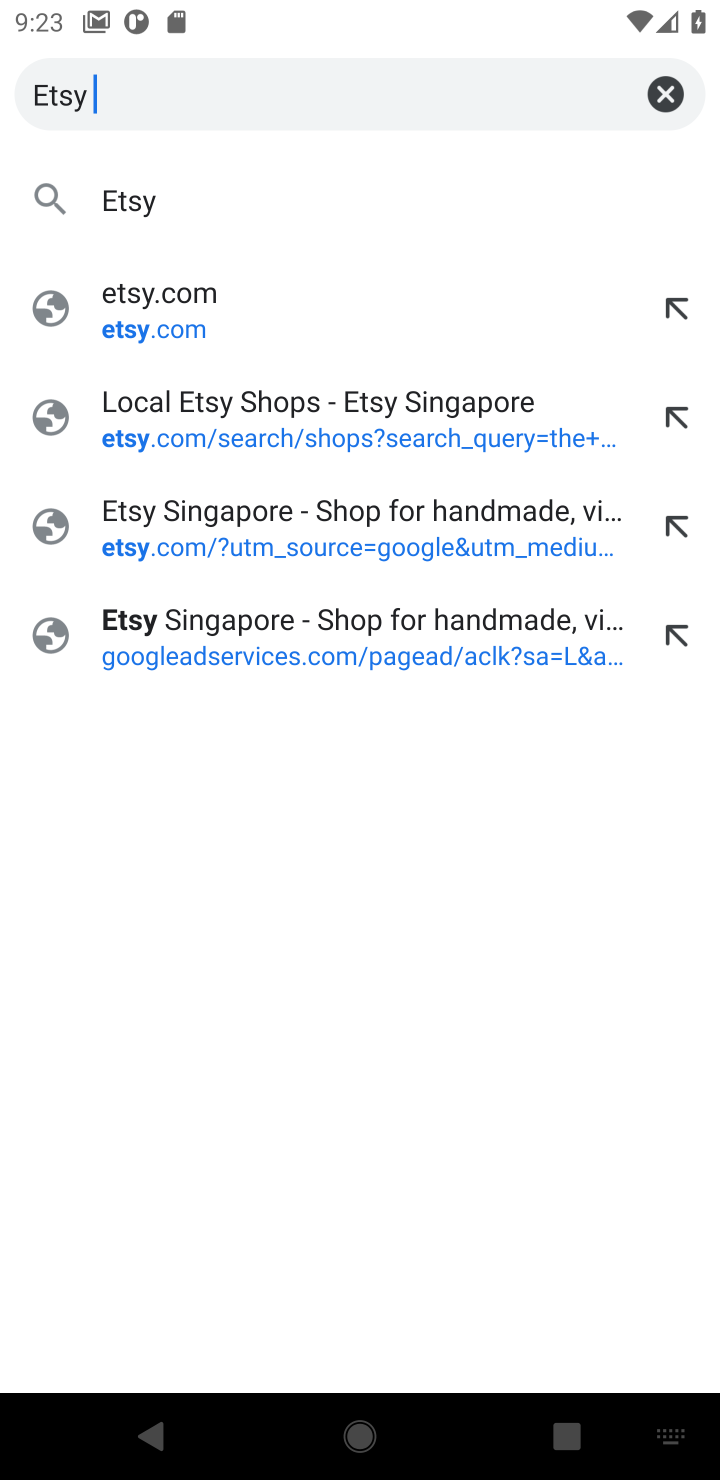
Step 31: click (152, 226)
Your task to perform on an android device: Search for custom wallets on Etsy. Image 32: 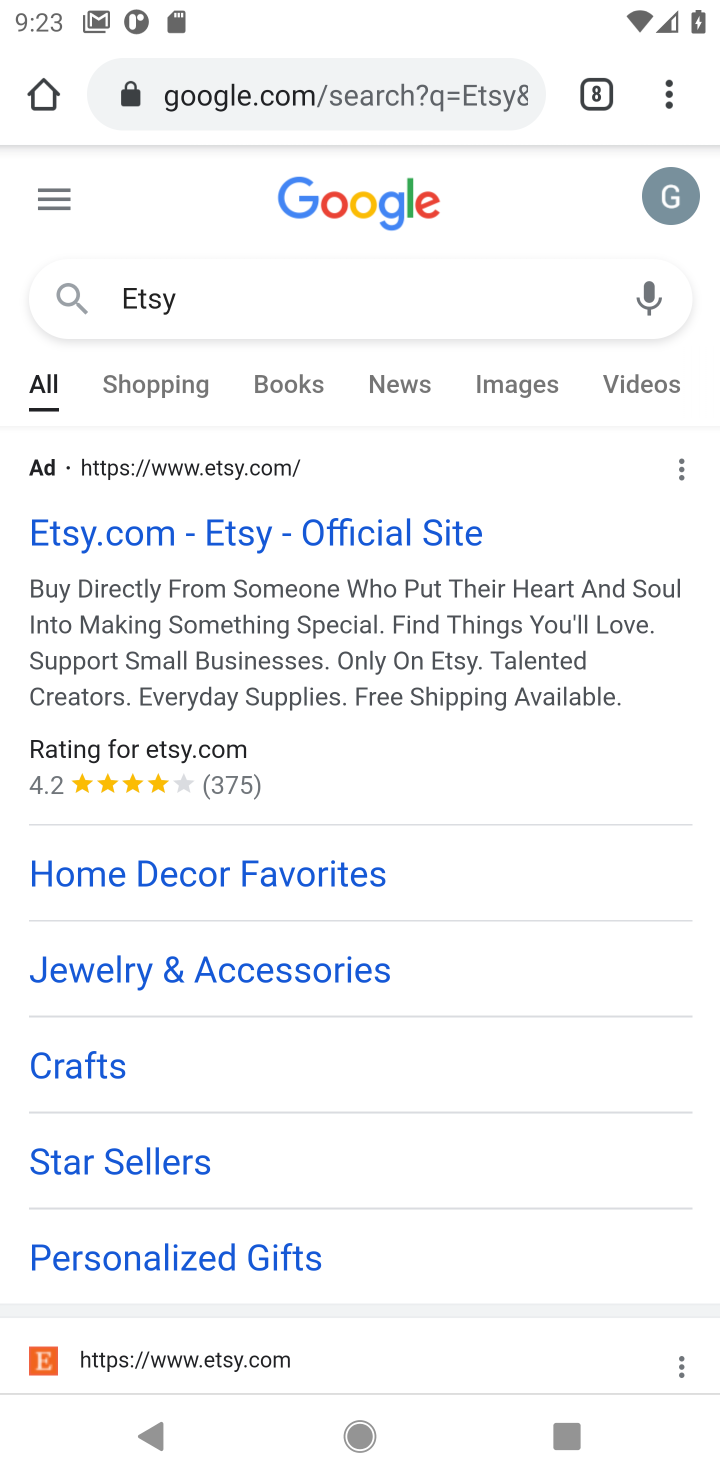
Step 32: click (306, 522)
Your task to perform on an android device: Search for custom wallets on Etsy. Image 33: 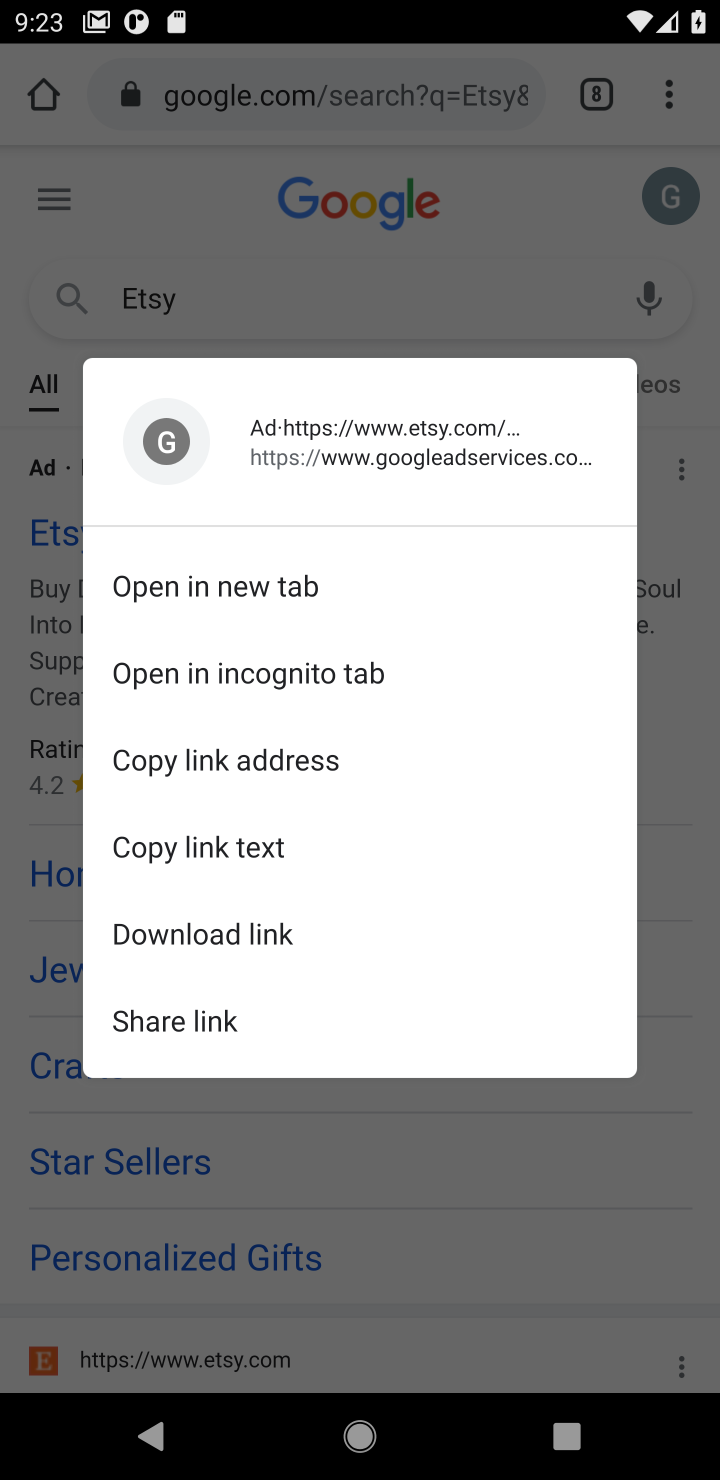
Step 33: click (652, 403)
Your task to perform on an android device: Search for custom wallets on Etsy. Image 34: 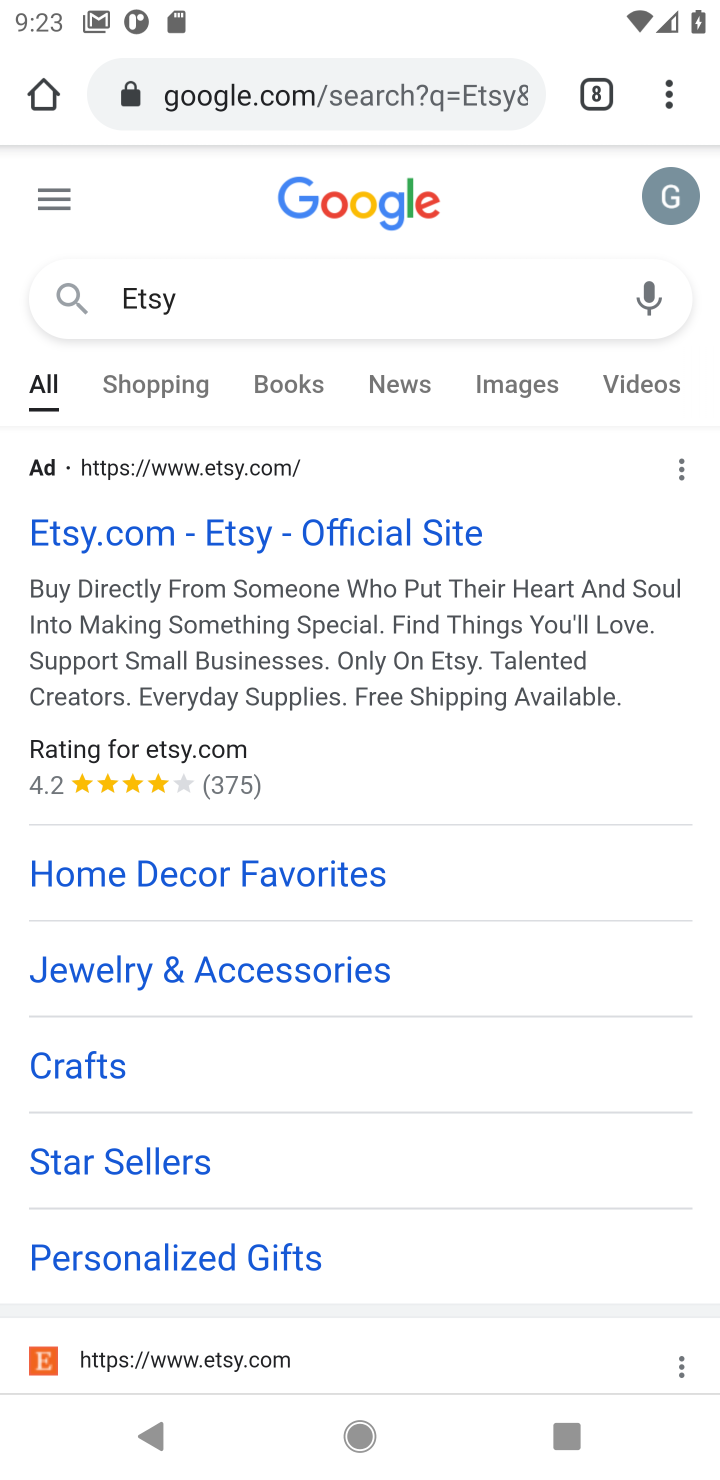
Step 34: click (270, 537)
Your task to perform on an android device: Search for custom wallets on Etsy. Image 35: 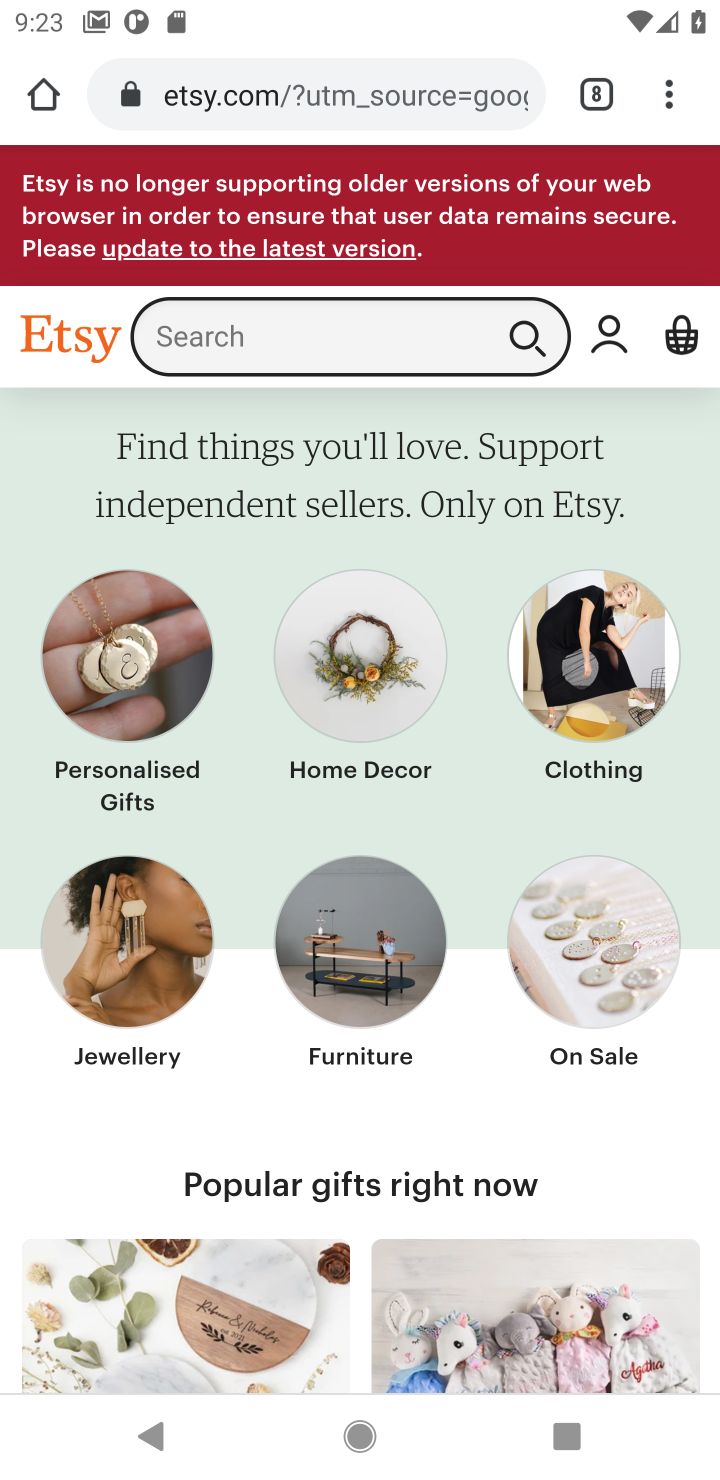
Step 35: click (276, 328)
Your task to perform on an android device: Search for custom wallets on Etsy. Image 36: 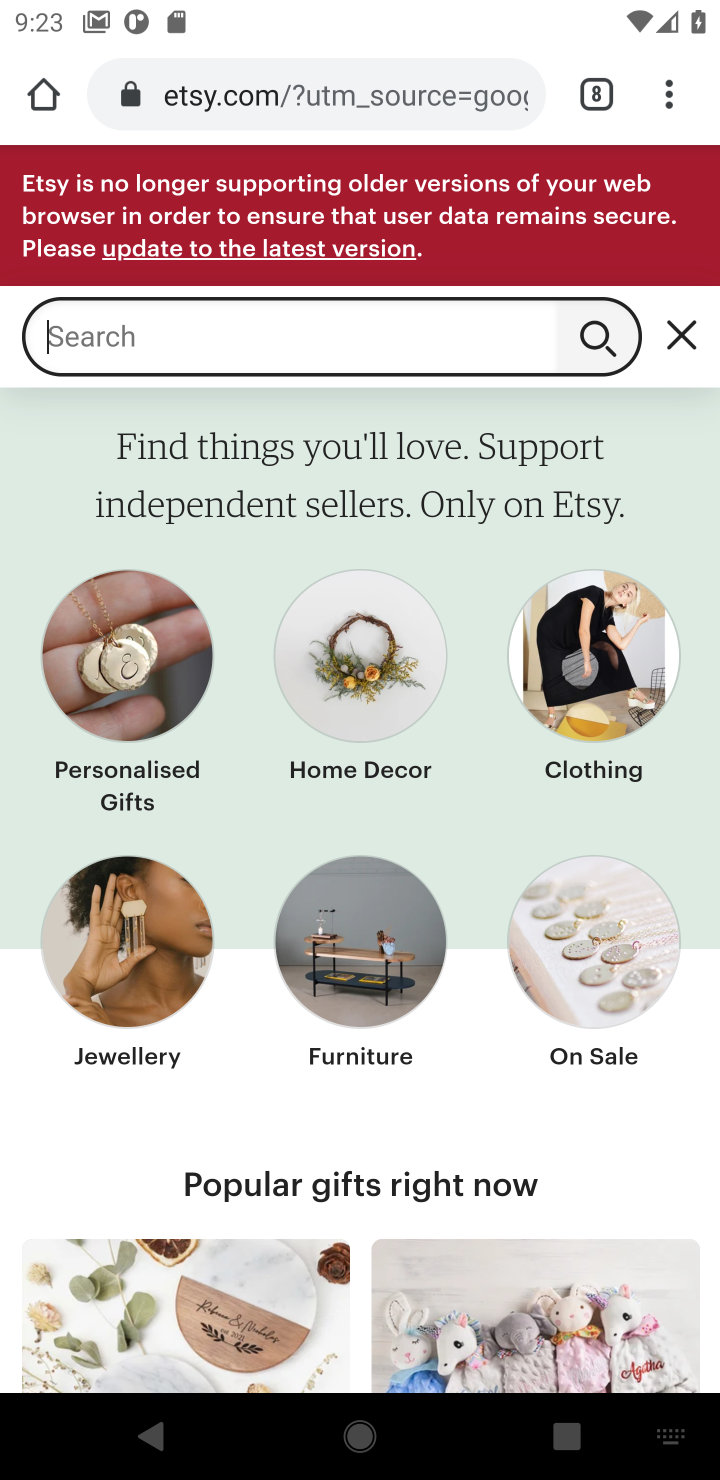
Step 36: type "custom wallets  "
Your task to perform on an android device: Search for custom wallets on Etsy. Image 37: 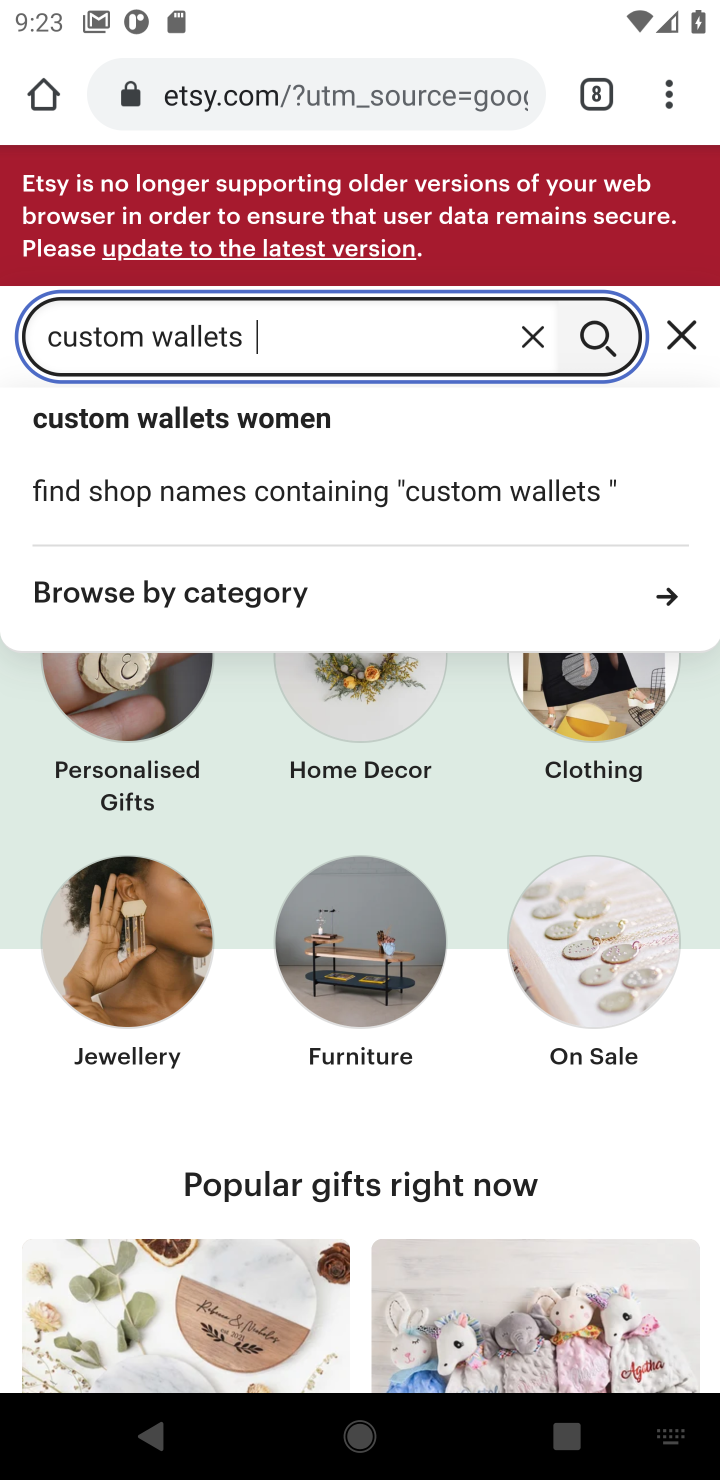
Step 37: click (177, 495)
Your task to perform on an android device: Search for custom wallets on Etsy. Image 38: 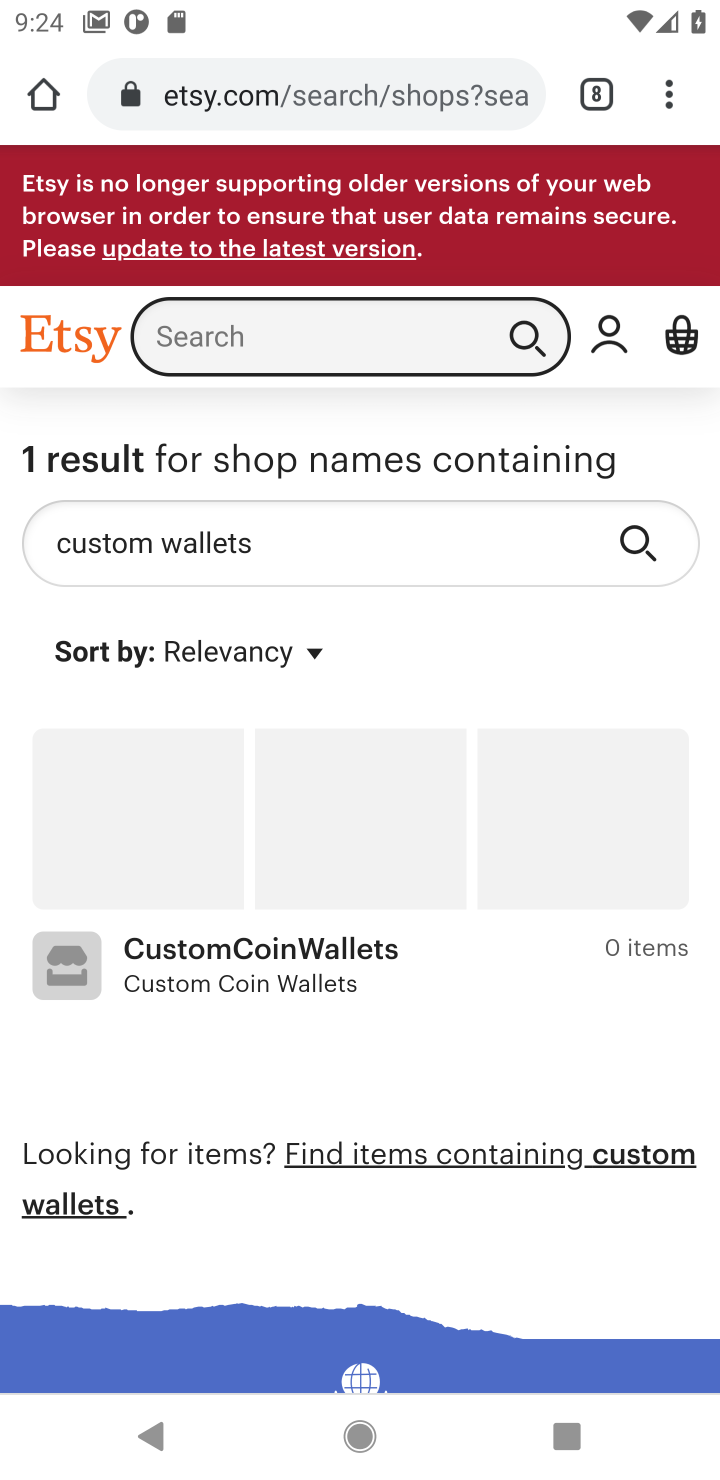
Step 38: task complete